Your task to perform on an android device: change your default location settings in chrome Image 0: 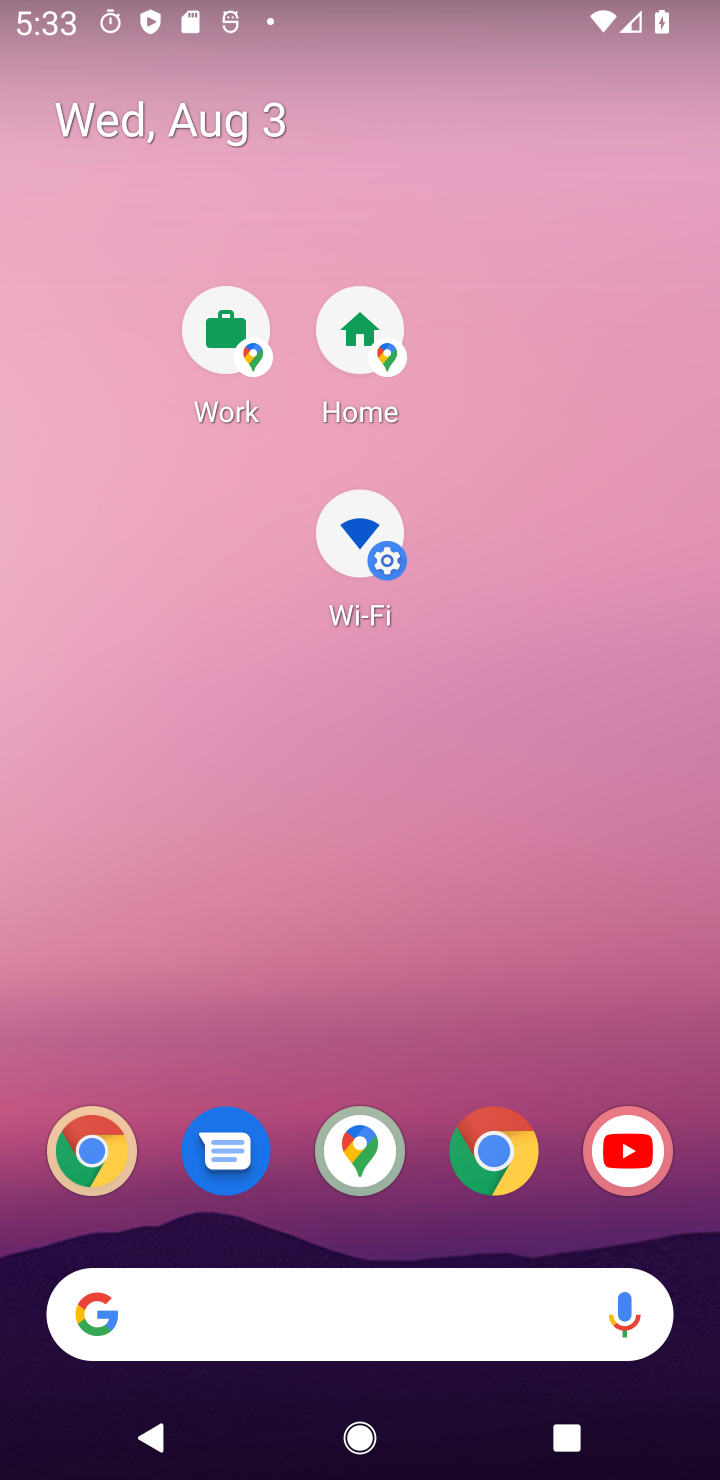
Step 0: drag from (226, 802) to (294, 475)
Your task to perform on an android device: change your default location settings in chrome Image 1: 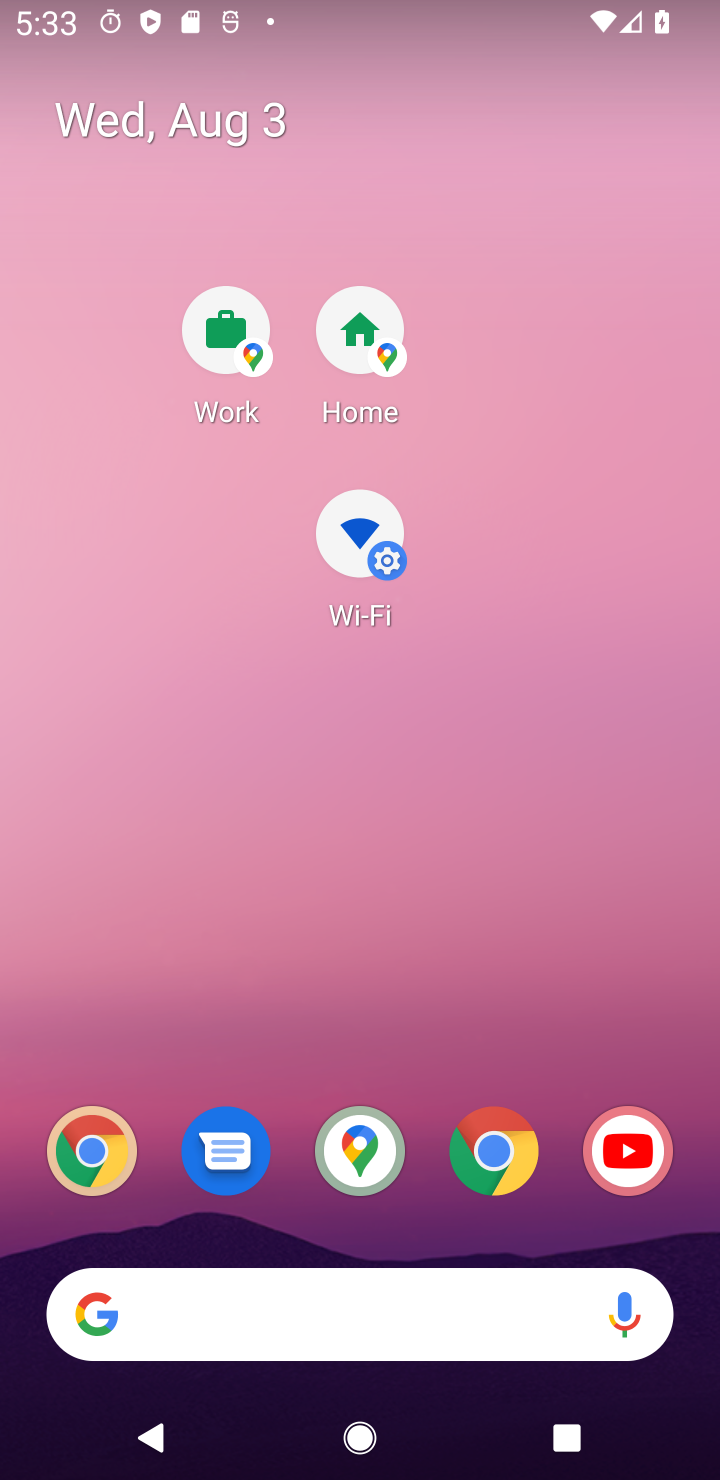
Step 1: drag from (392, 350) to (380, 43)
Your task to perform on an android device: change your default location settings in chrome Image 2: 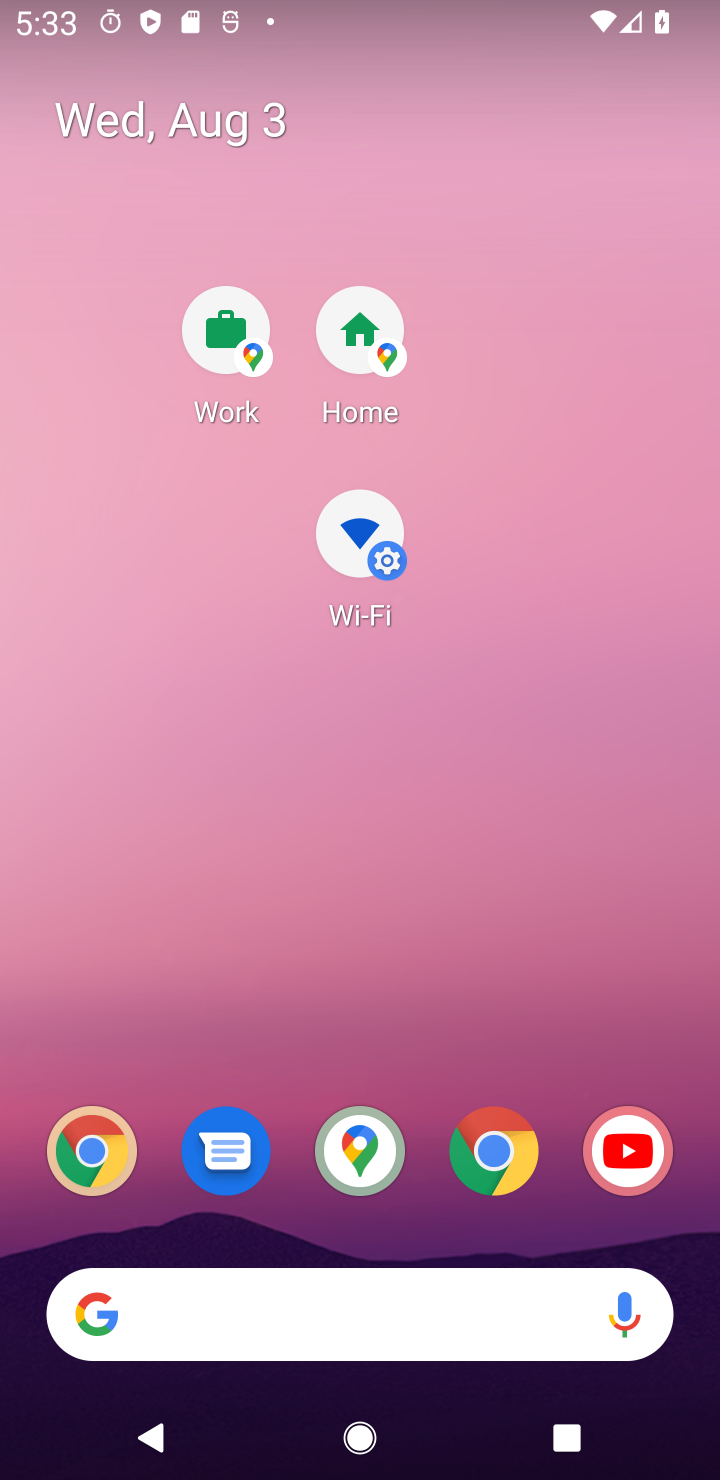
Step 2: drag from (441, 503) to (613, 17)
Your task to perform on an android device: change your default location settings in chrome Image 3: 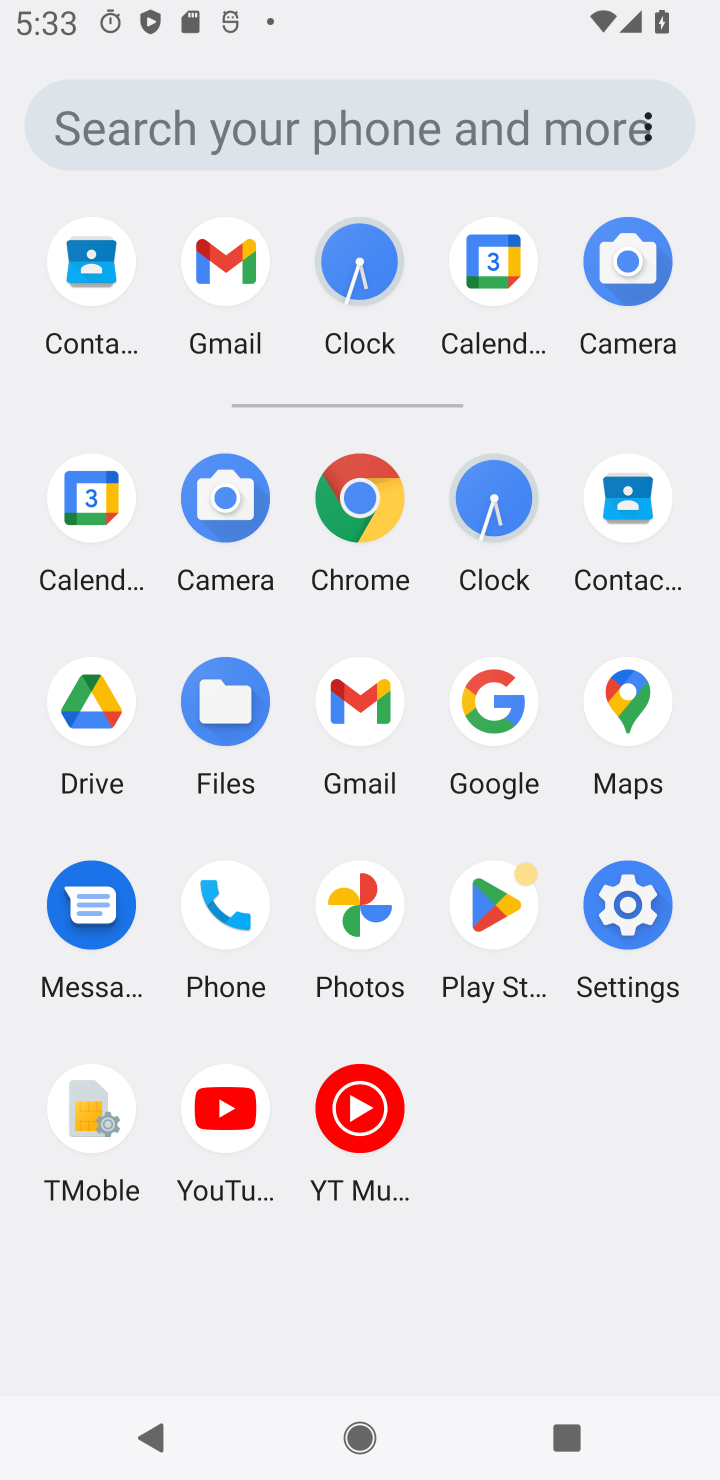
Step 3: click (346, 539)
Your task to perform on an android device: change your default location settings in chrome Image 4: 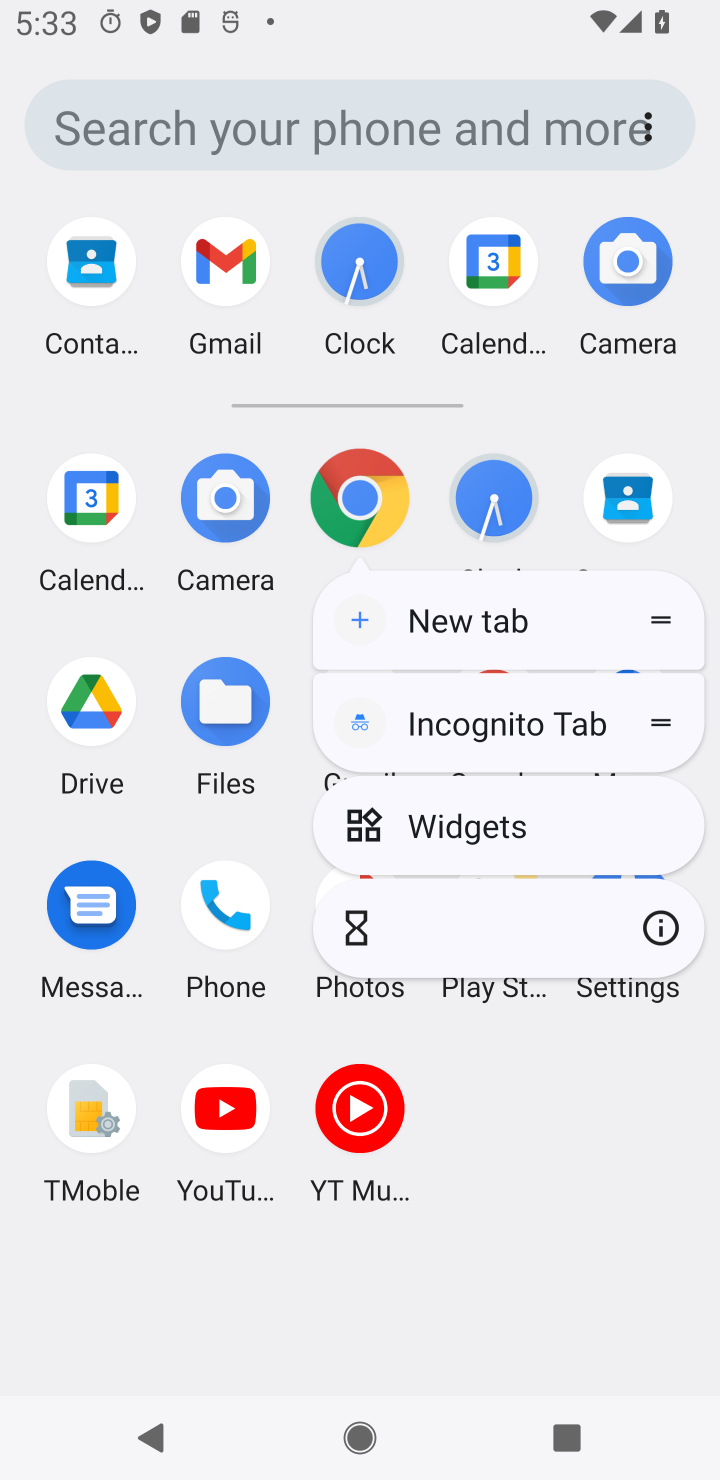
Step 4: click (355, 530)
Your task to perform on an android device: change your default location settings in chrome Image 5: 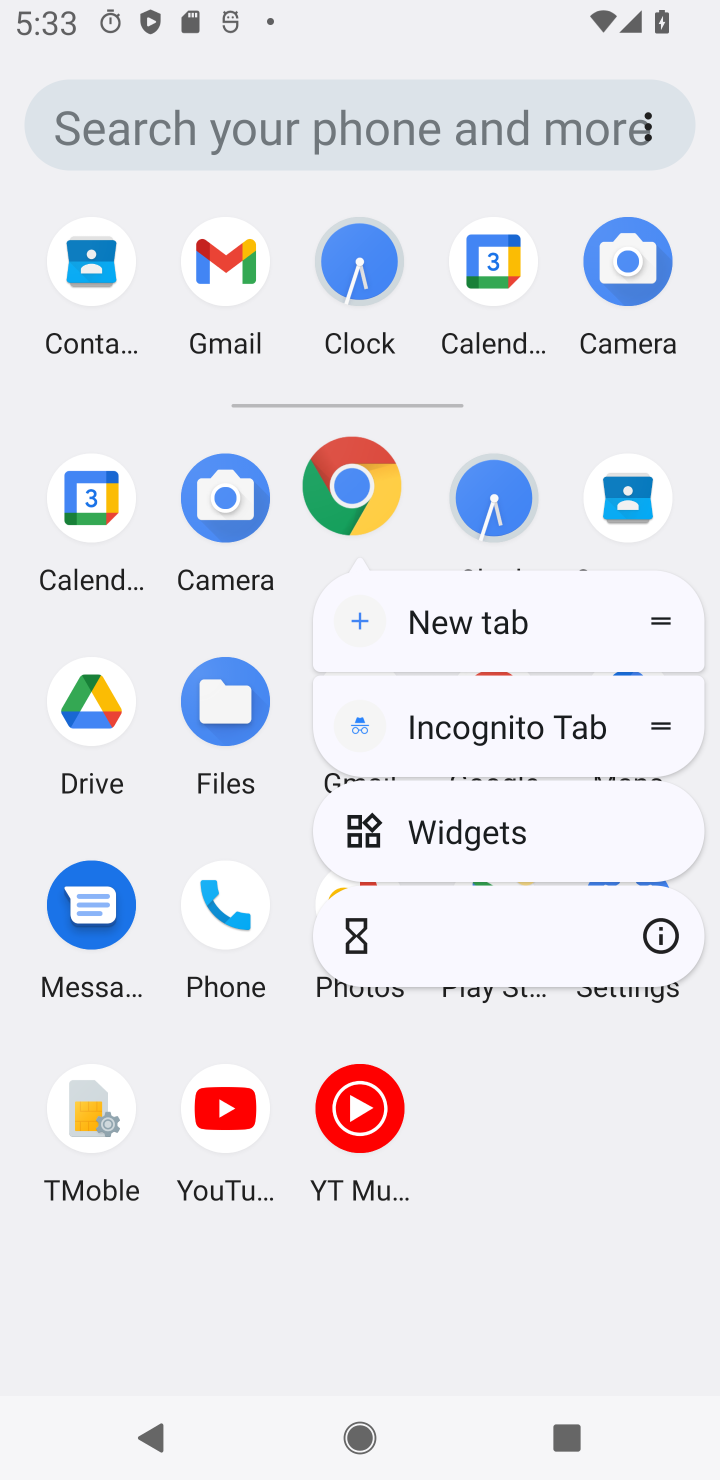
Step 5: click (351, 530)
Your task to perform on an android device: change your default location settings in chrome Image 6: 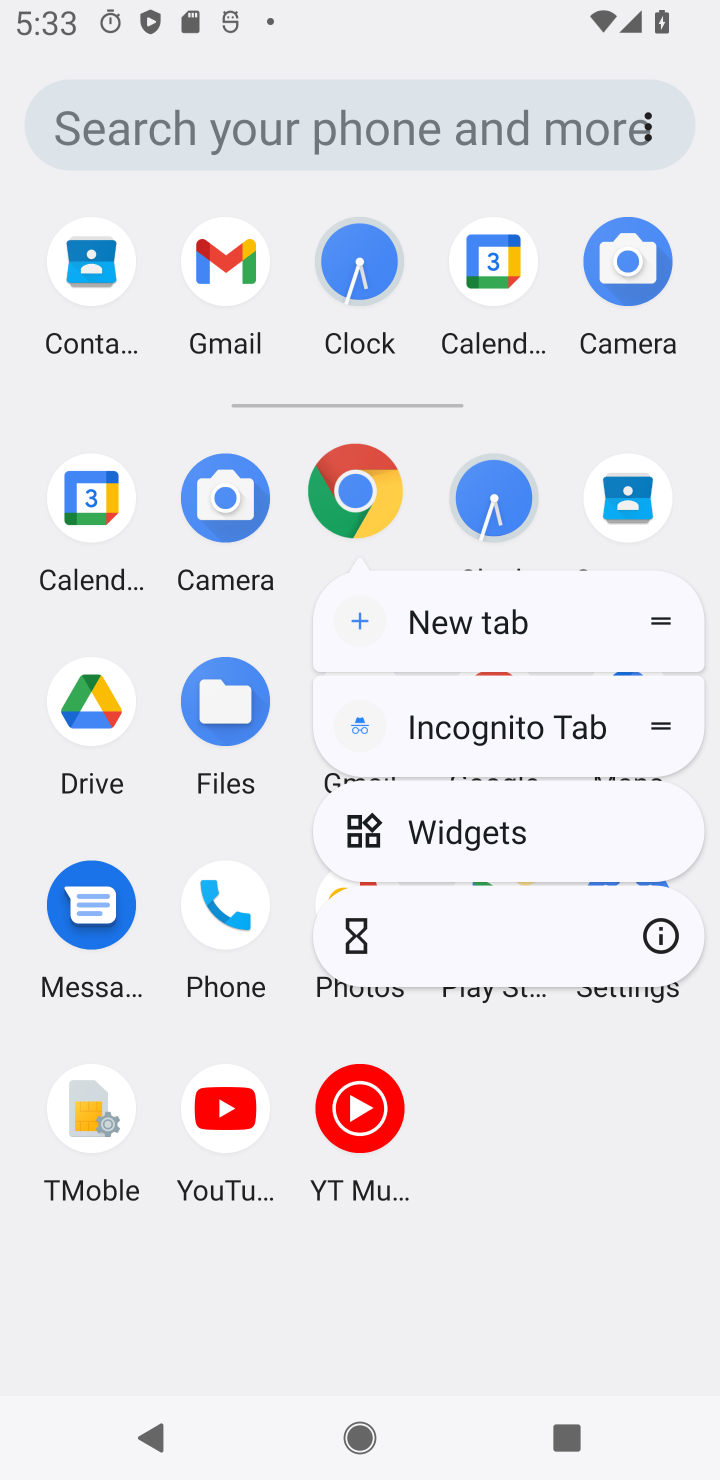
Step 6: click (349, 530)
Your task to perform on an android device: change your default location settings in chrome Image 7: 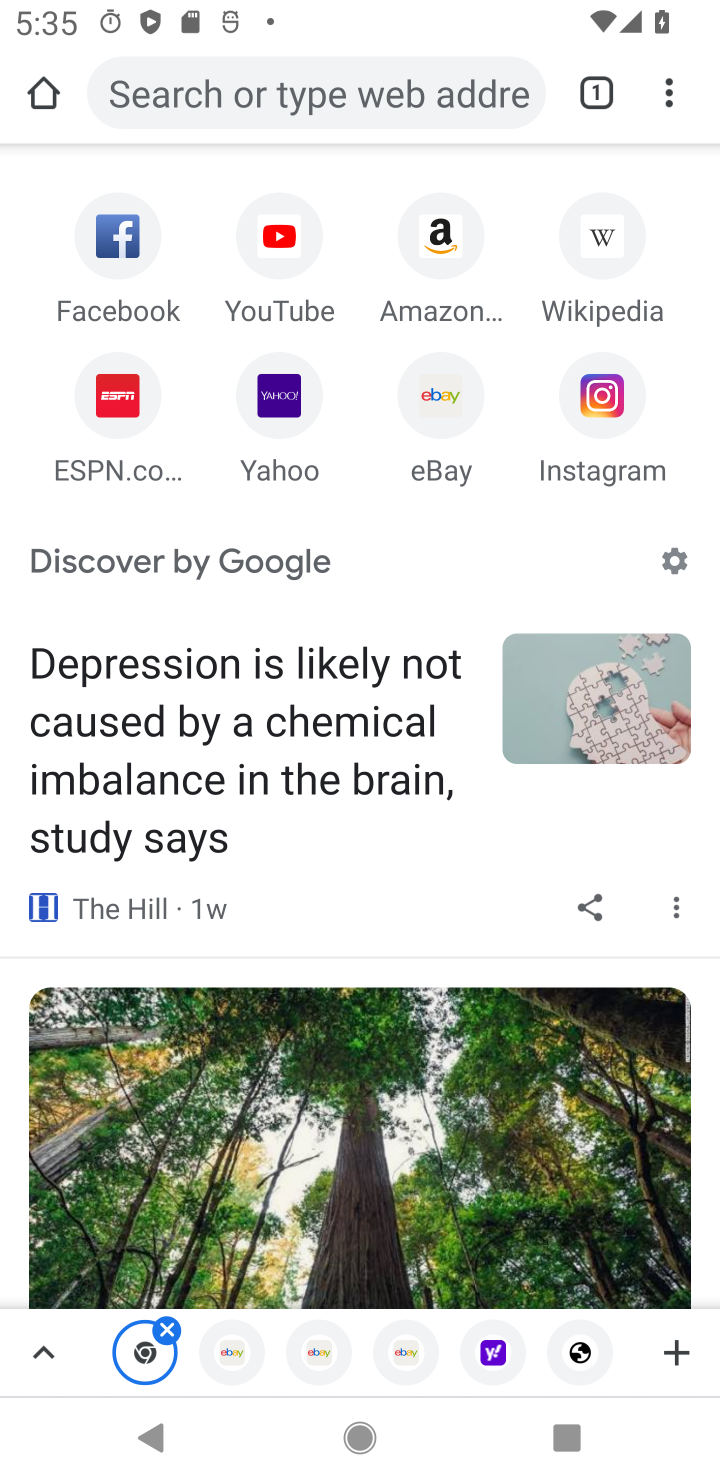
Step 7: drag from (675, 92) to (350, 650)
Your task to perform on an android device: change your default location settings in chrome Image 8: 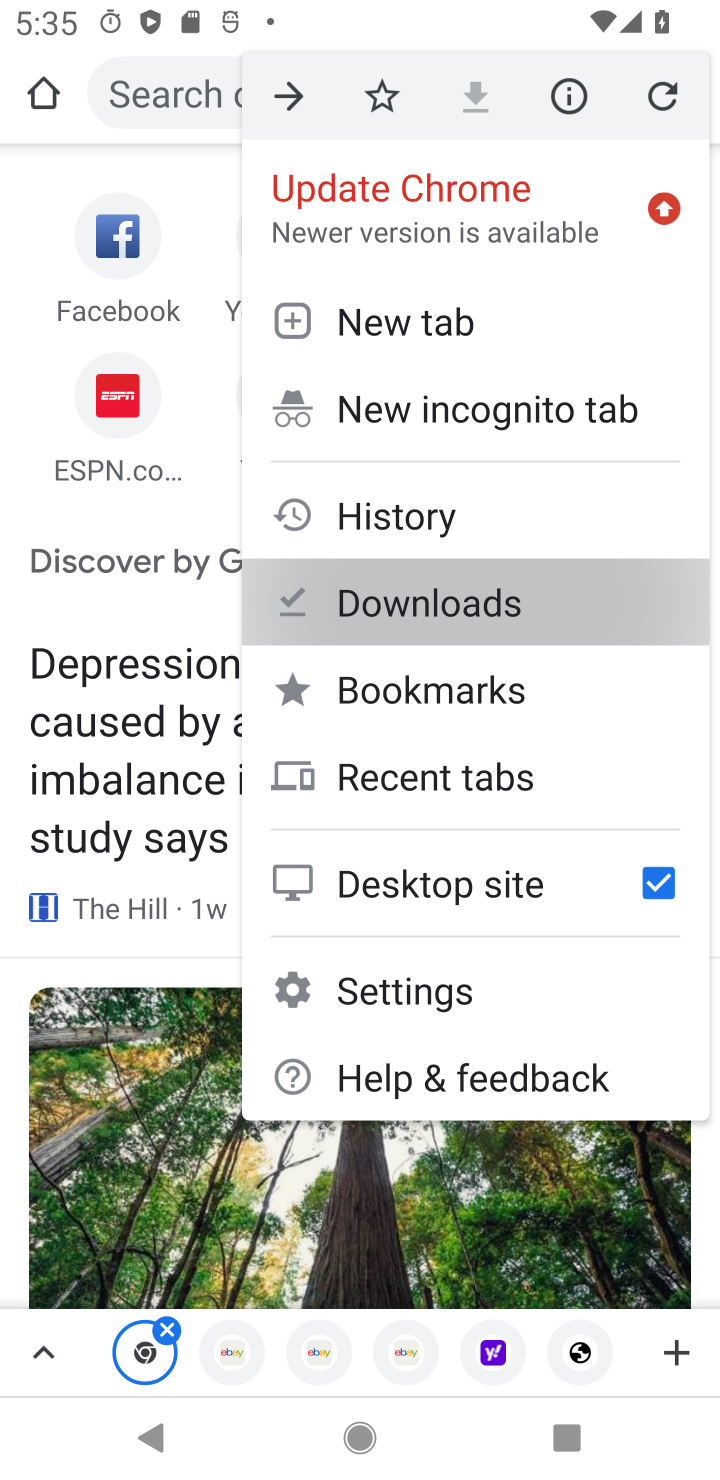
Step 8: click (464, 764)
Your task to perform on an android device: change your default location settings in chrome Image 9: 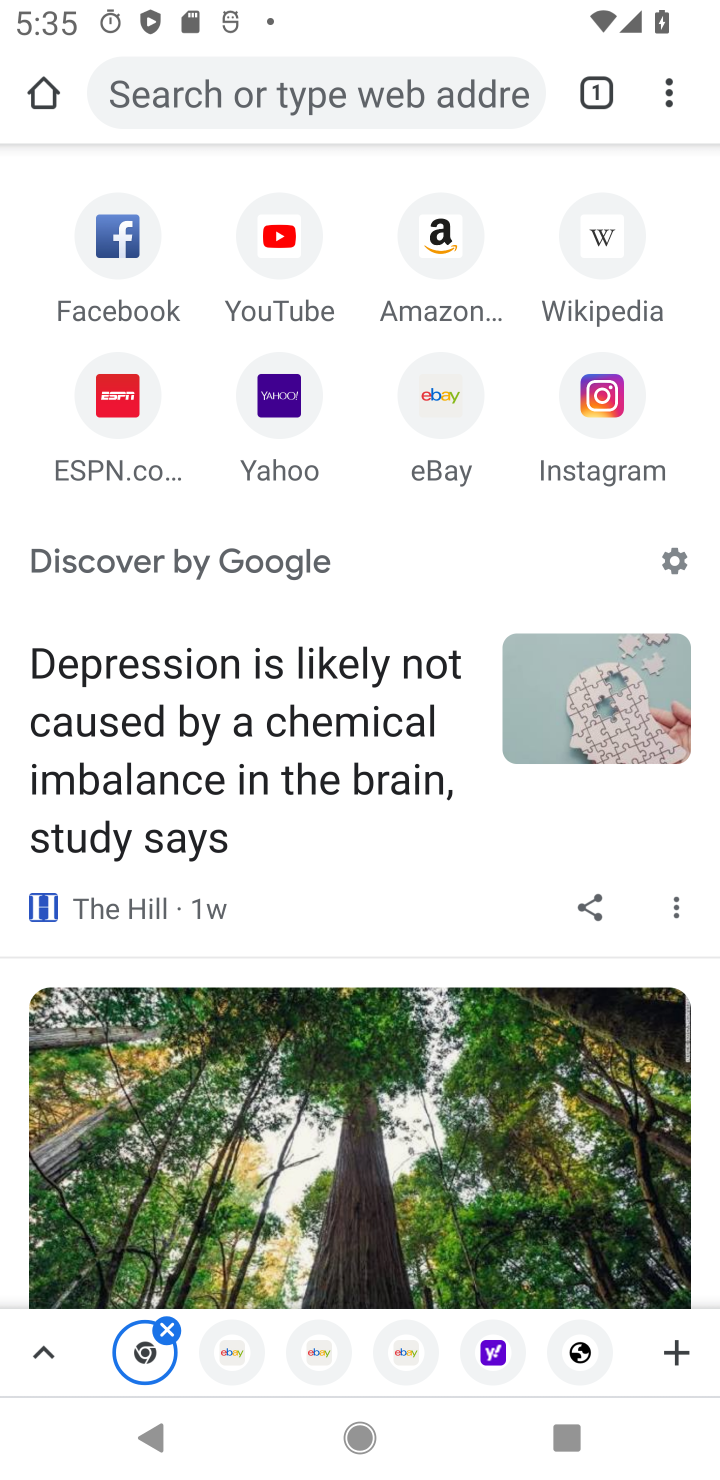
Step 9: click (466, 763)
Your task to perform on an android device: change your default location settings in chrome Image 10: 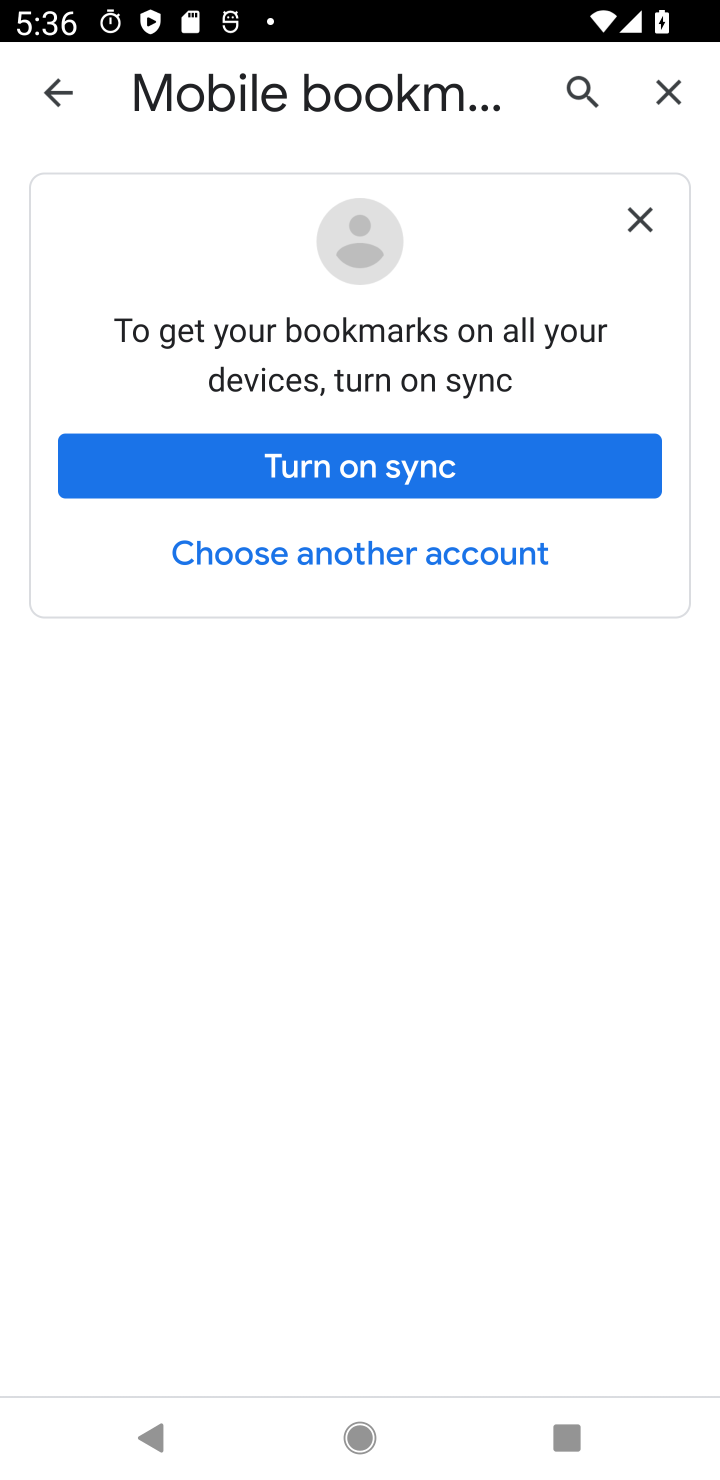
Step 10: click (387, 467)
Your task to perform on an android device: change your default location settings in chrome Image 11: 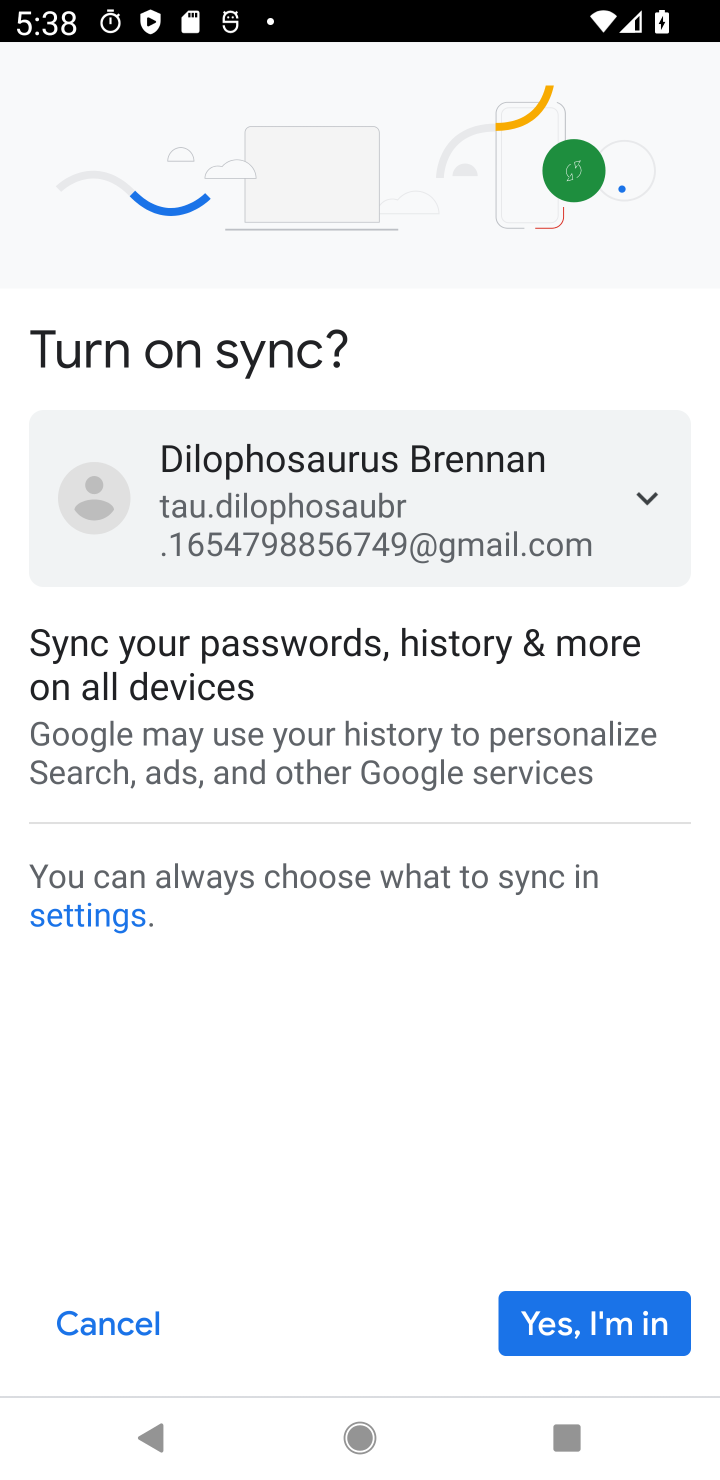
Step 11: click (95, 1314)
Your task to perform on an android device: change your default location settings in chrome Image 12: 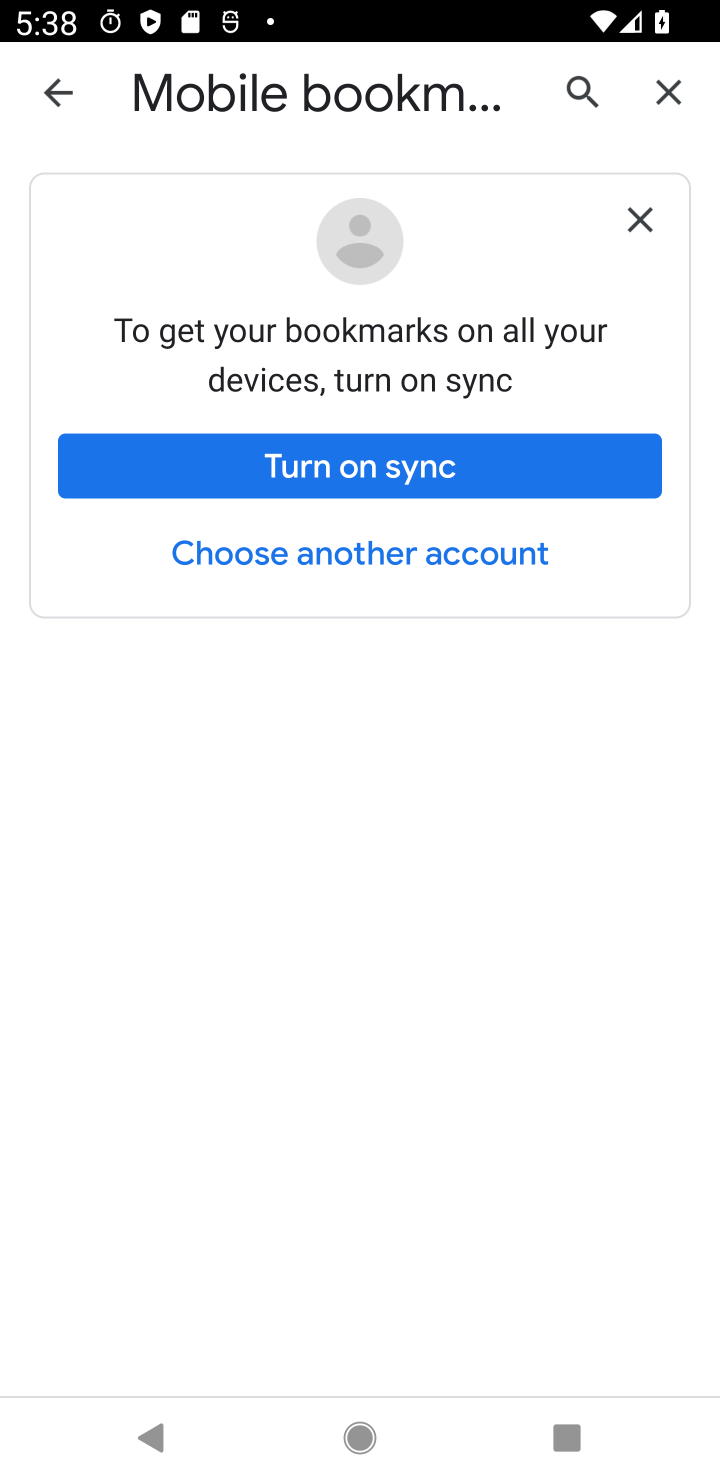
Step 12: click (55, 86)
Your task to perform on an android device: change your default location settings in chrome Image 13: 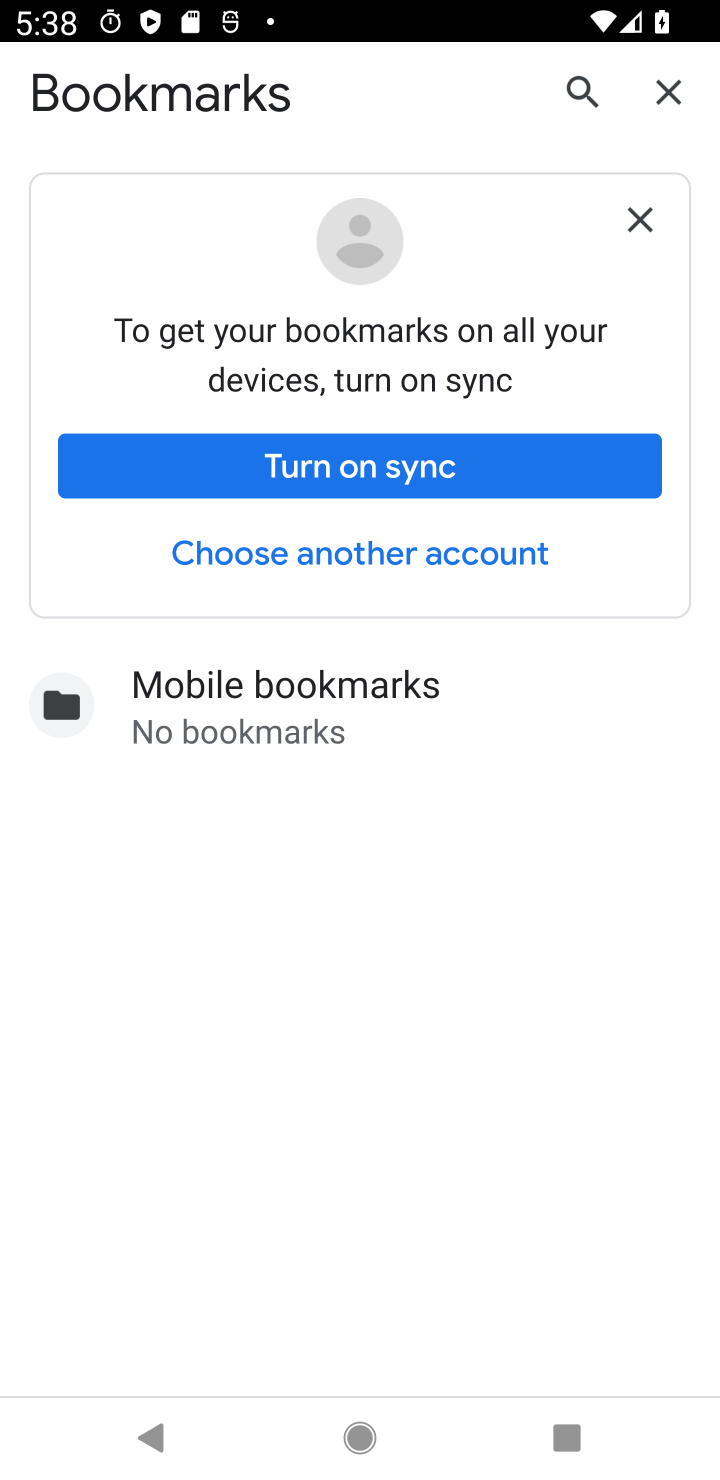
Step 13: click (648, 222)
Your task to perform on an android device: change your default location settings in chrome Image 14: 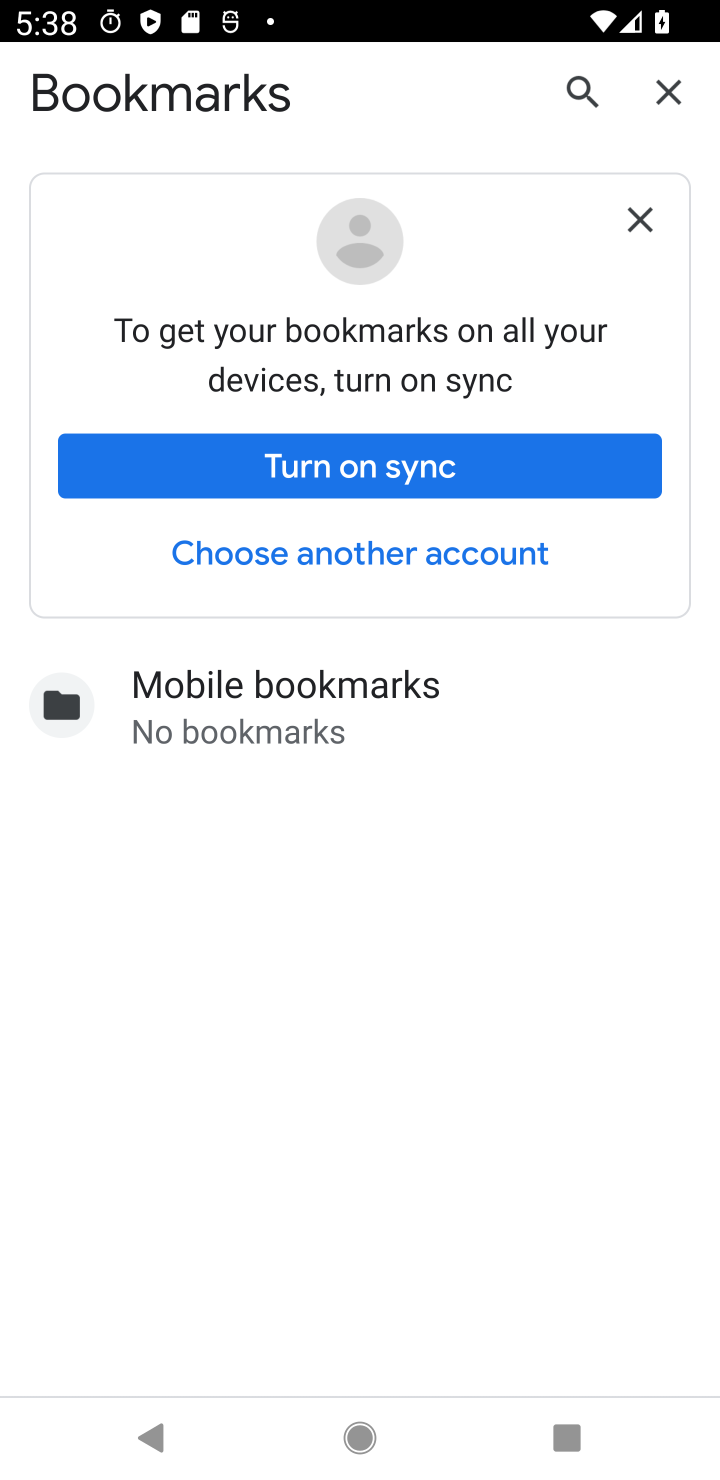
Step 14: click (640, 219)
Your task to perform on an android device: change your default location settings in chrome Image 15: 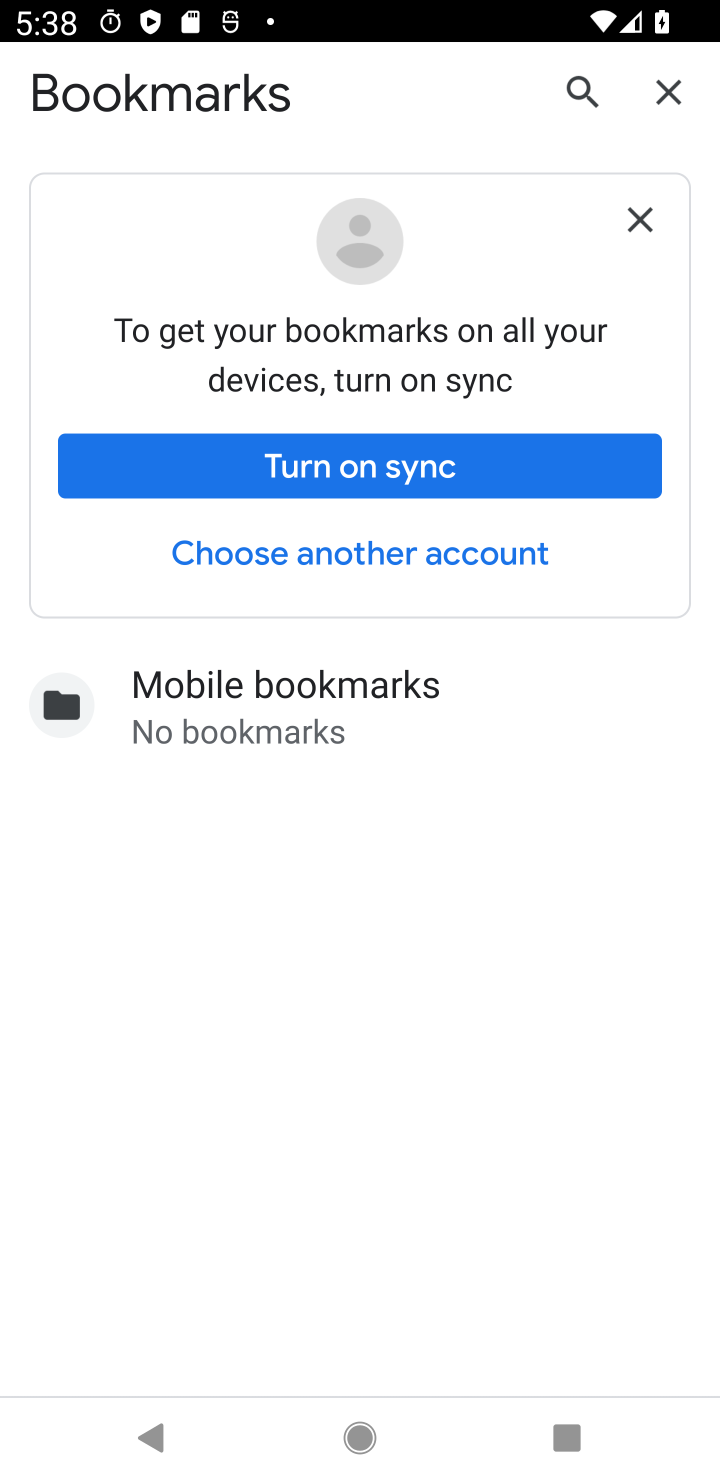
Step 15: click (640, 219)
Your task to perform on an android device: change your default location settings in chrome Image 16: 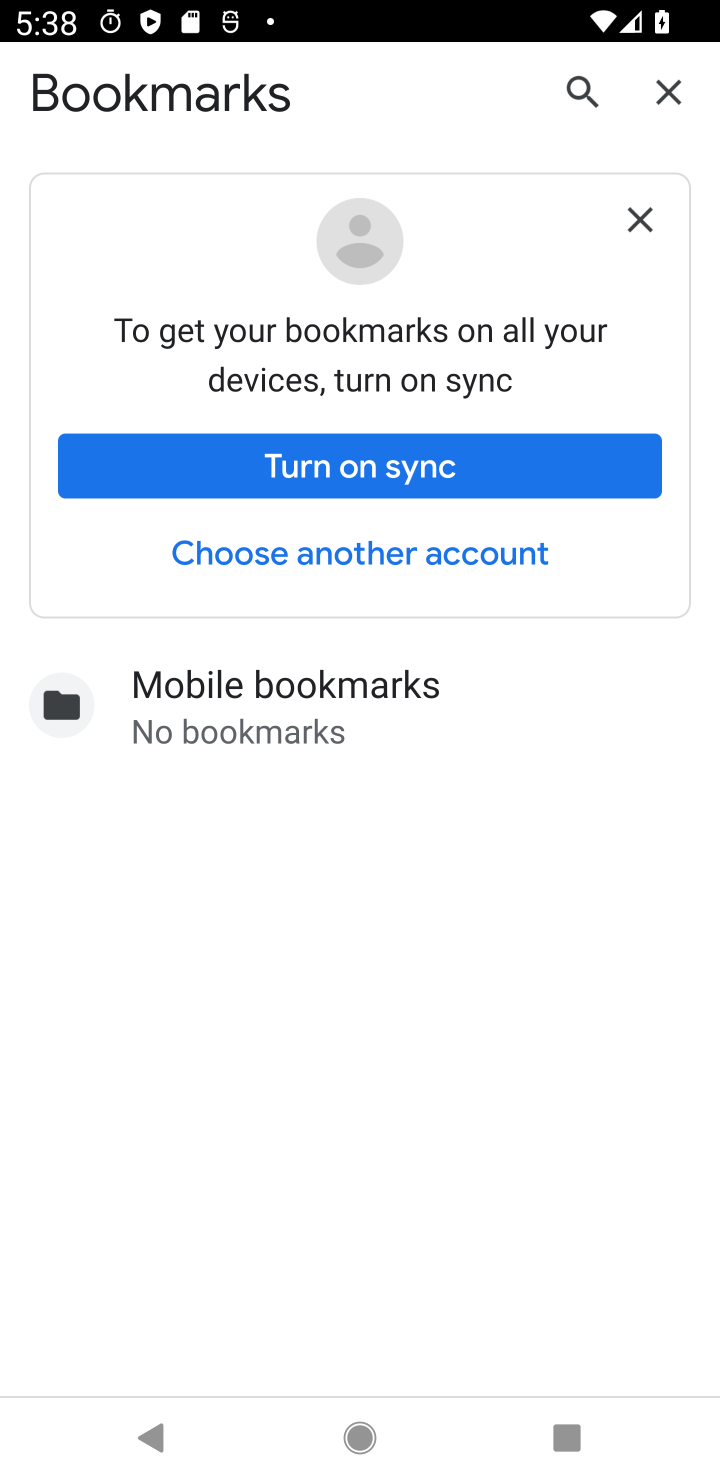
Step 16: click (629, 219)
Your task to perform on an android device: change your default location settings in chrome Image 17: 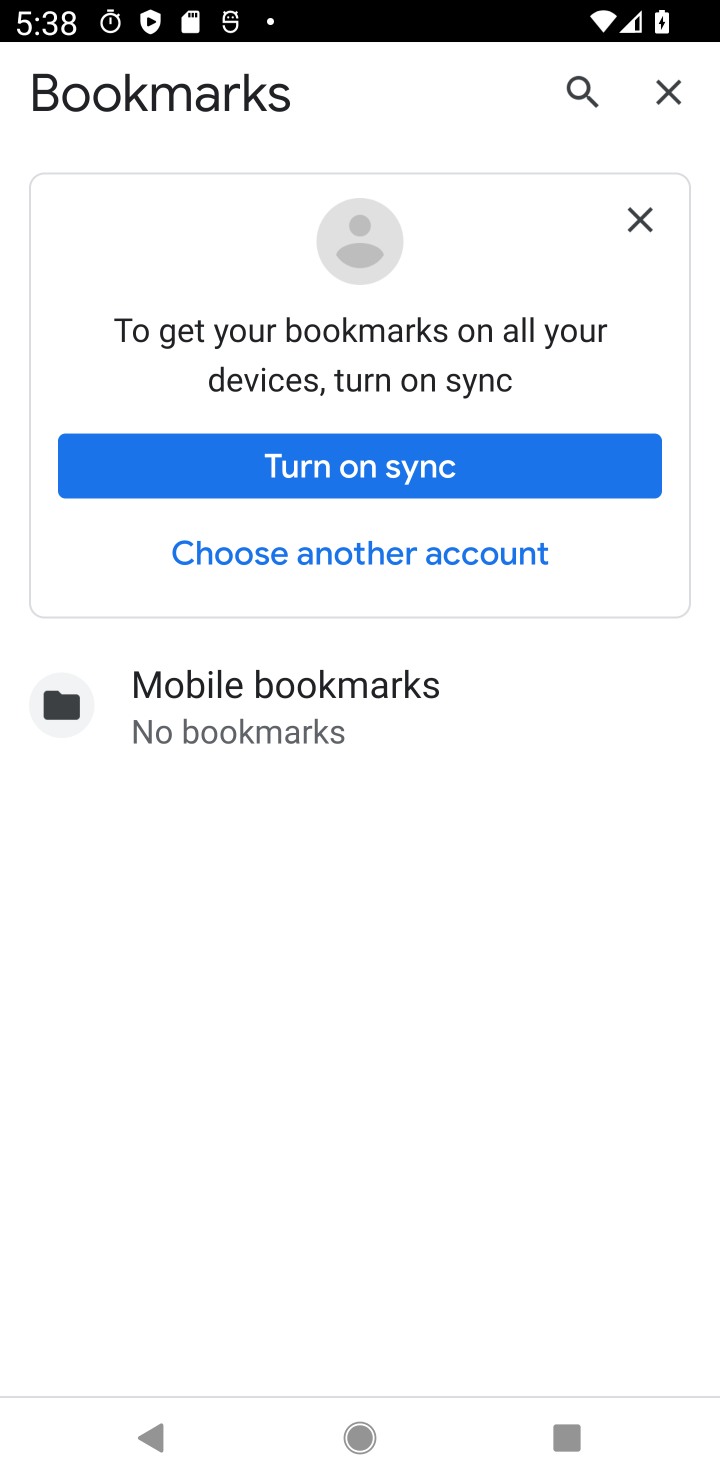
Step 17: click (647, 85)
Your task to perform on an android device: change your default location settings in chrome Image 18: 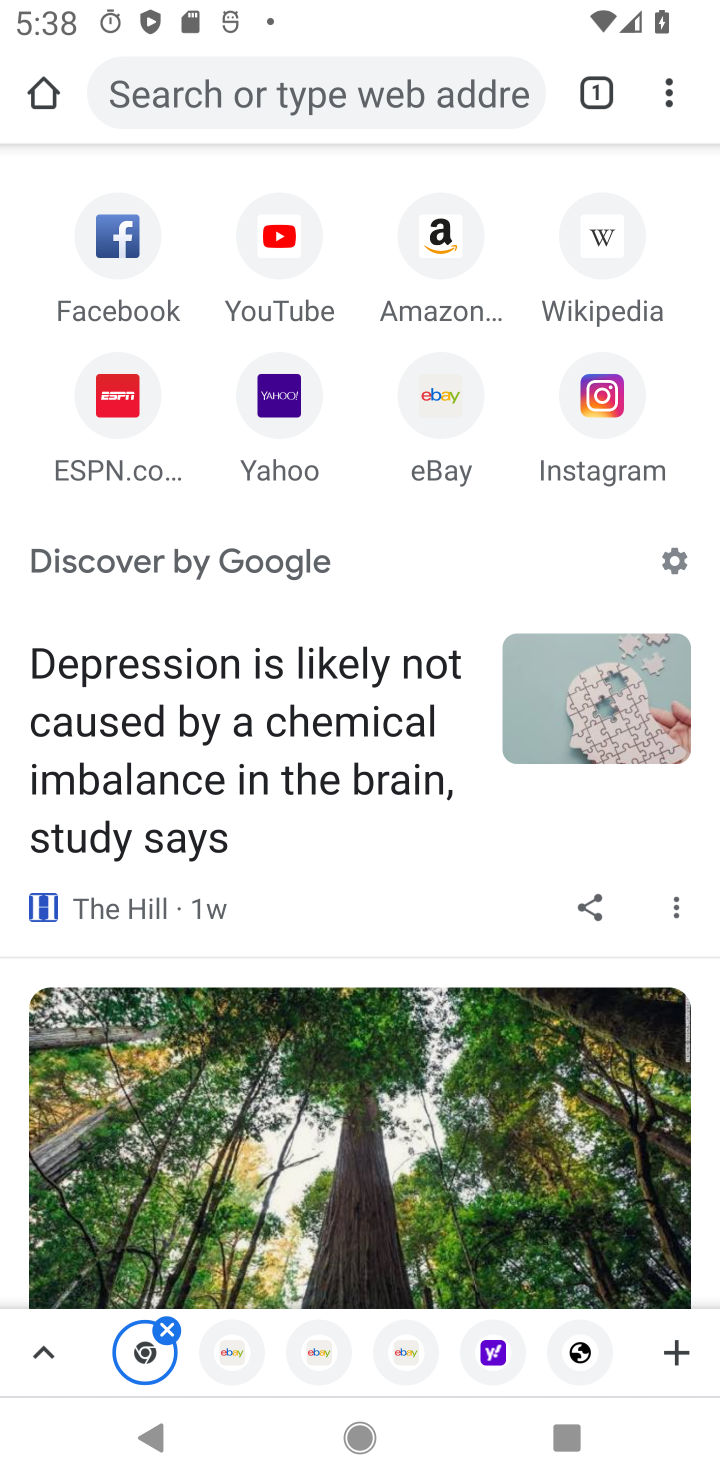
Step 18: drag from (667, 98) to (386, 984)
Your task to perform on an android device: change your default location settings in chrome Image 19: 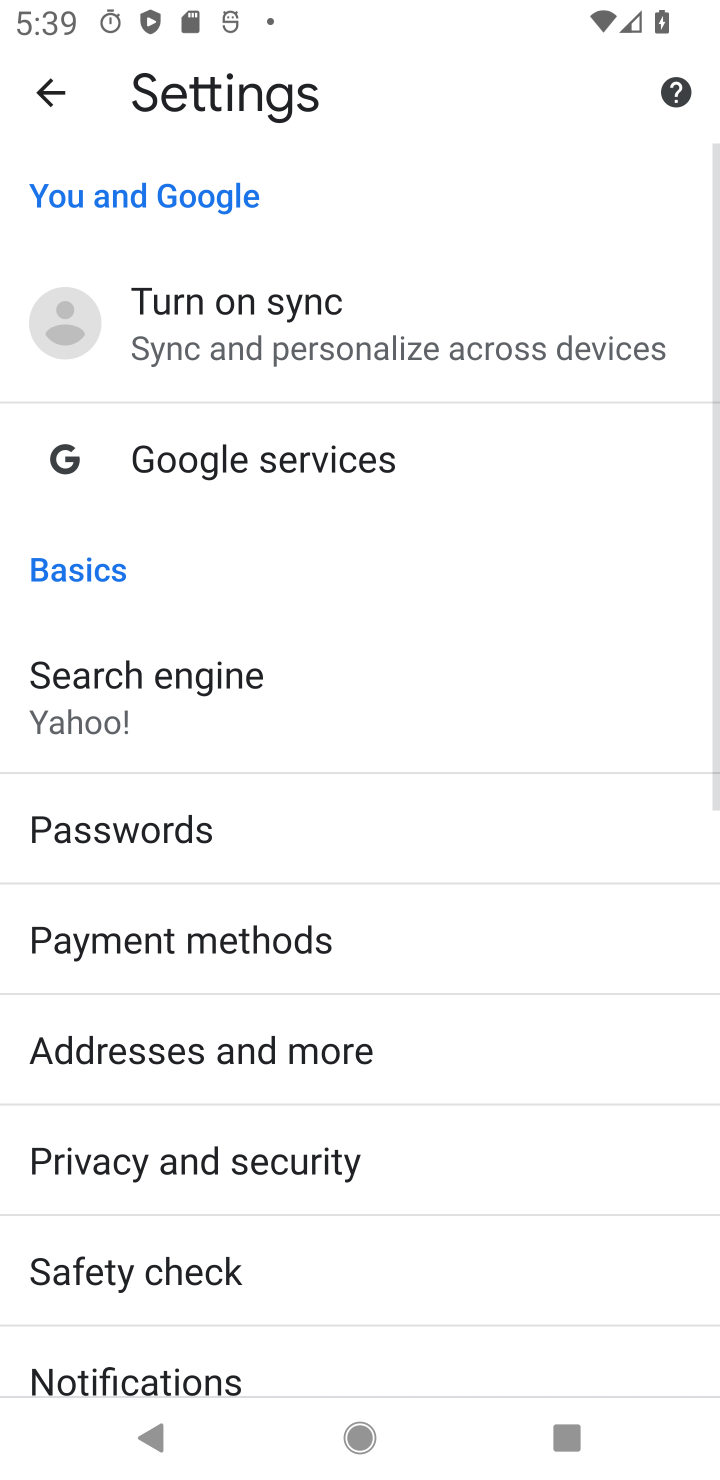
Step 19: drag from (225, 1176) to (161, 696)
Your task to perform on an android device: change your default location settings in chrome Image 20: 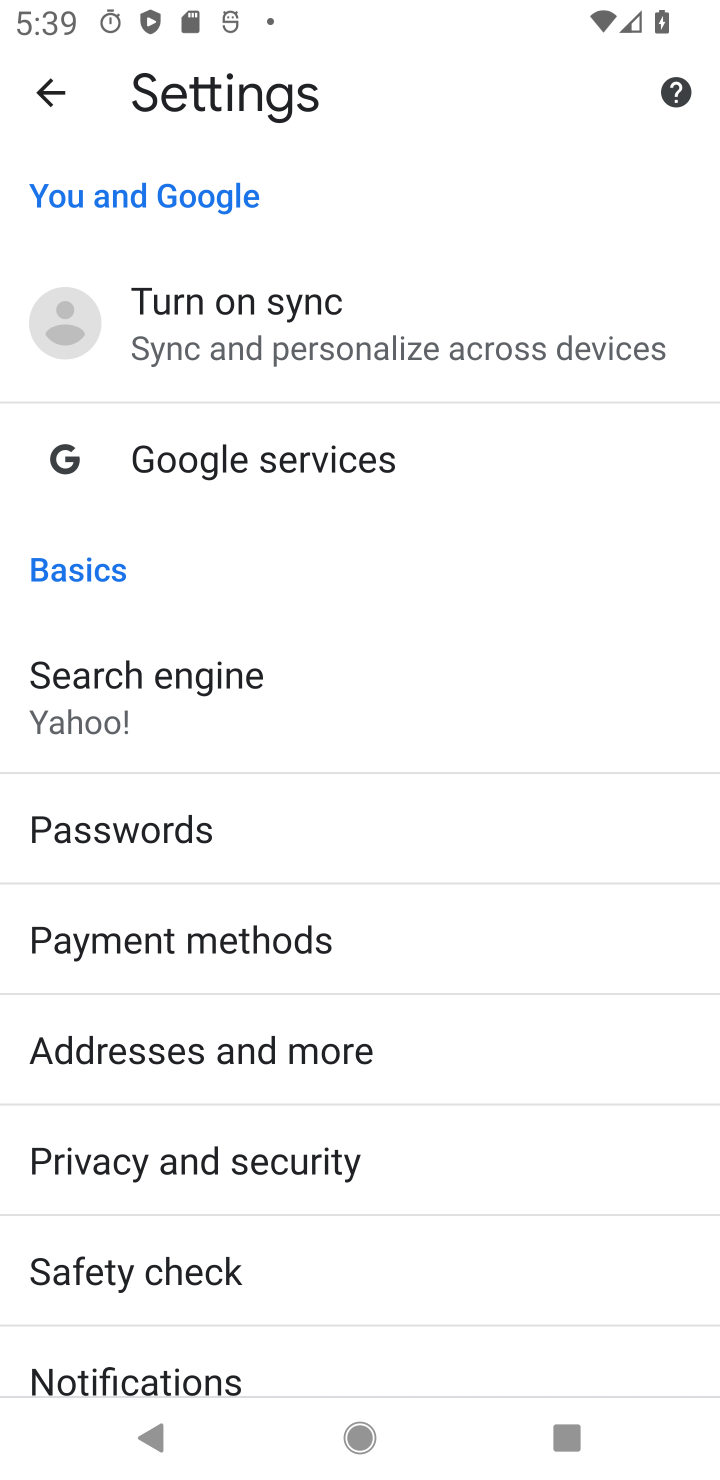
Step 20: click (136, 702)
Your task to perform on an android device: change your default location settings in chrome Image 21: 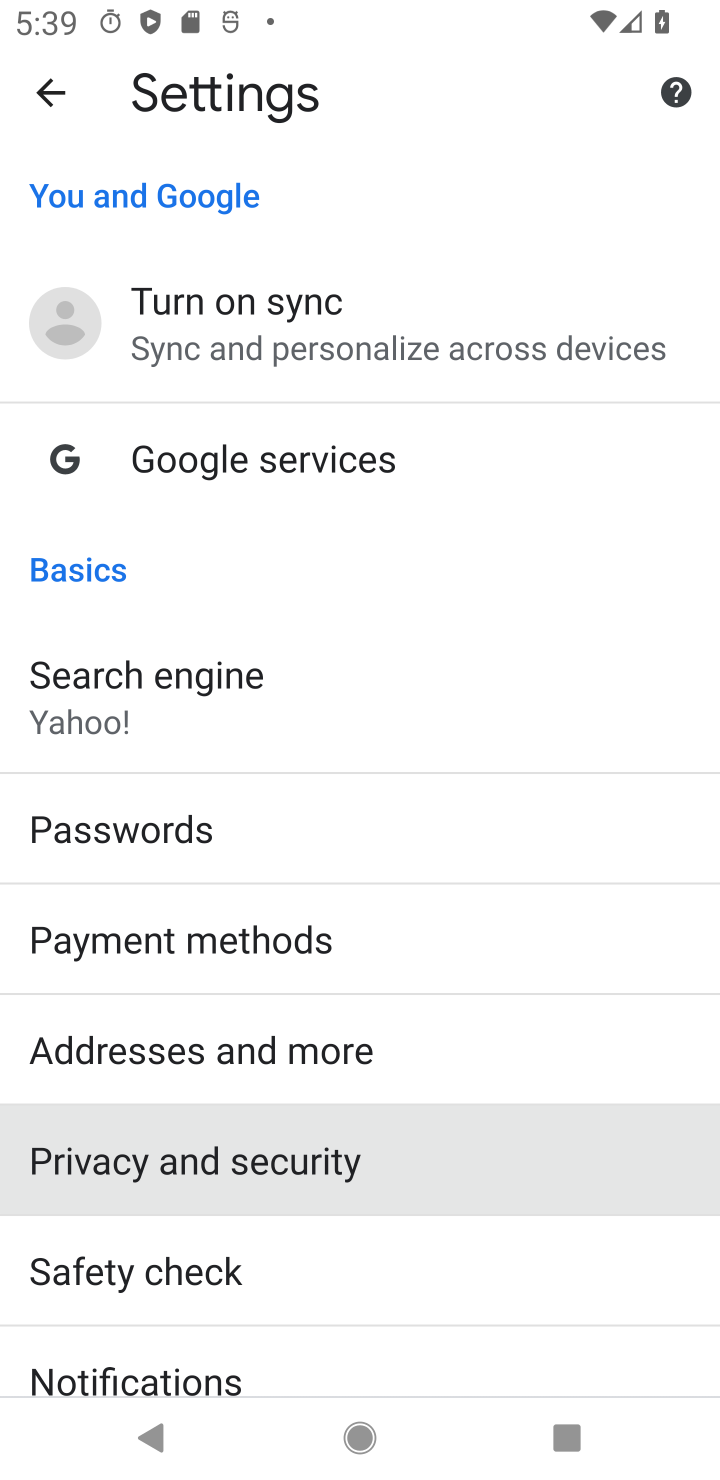
Step 21: click (258, 751)
Your task to perform on an android device: change your default location settings in chrome Image 22: 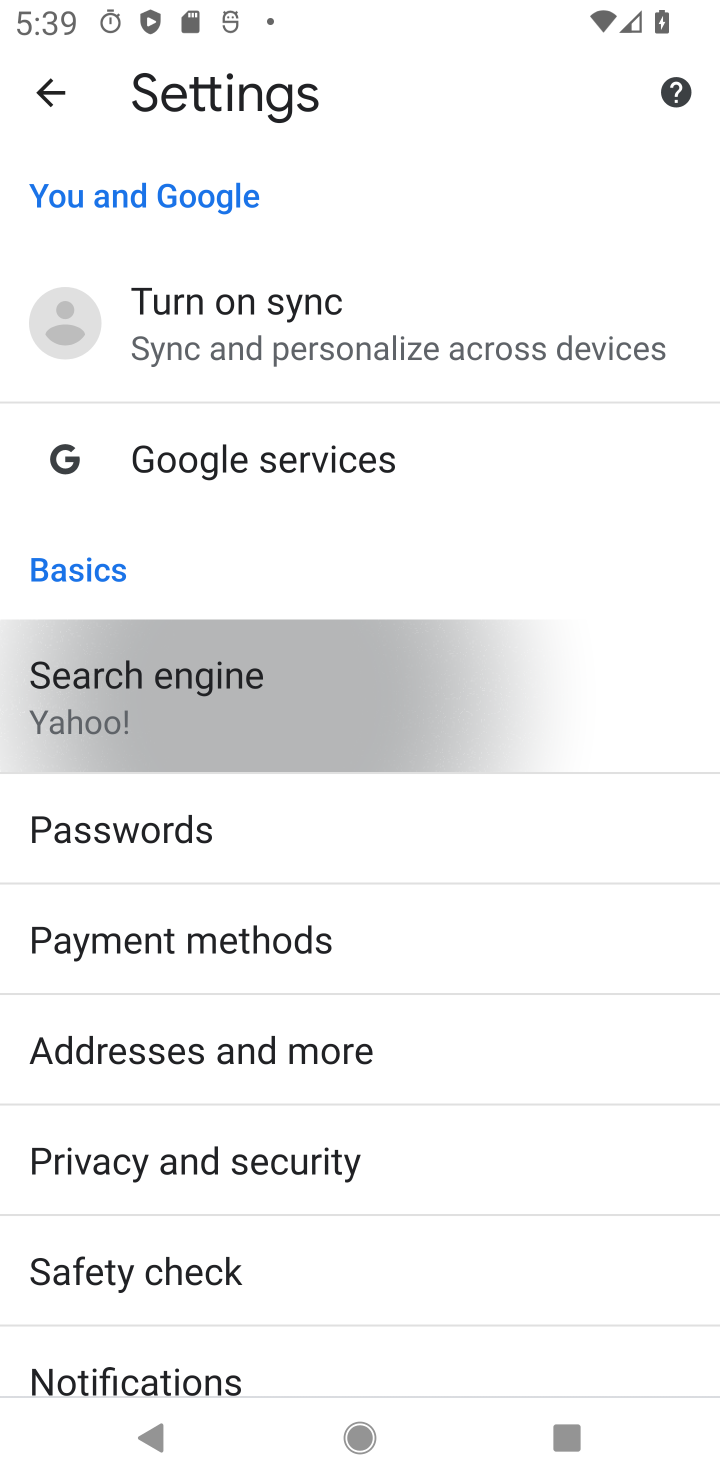
Step 22: drag from (319, 952) to (319, 569)
Your task to perform on an android device: change your default location settings in chrome Image 23: 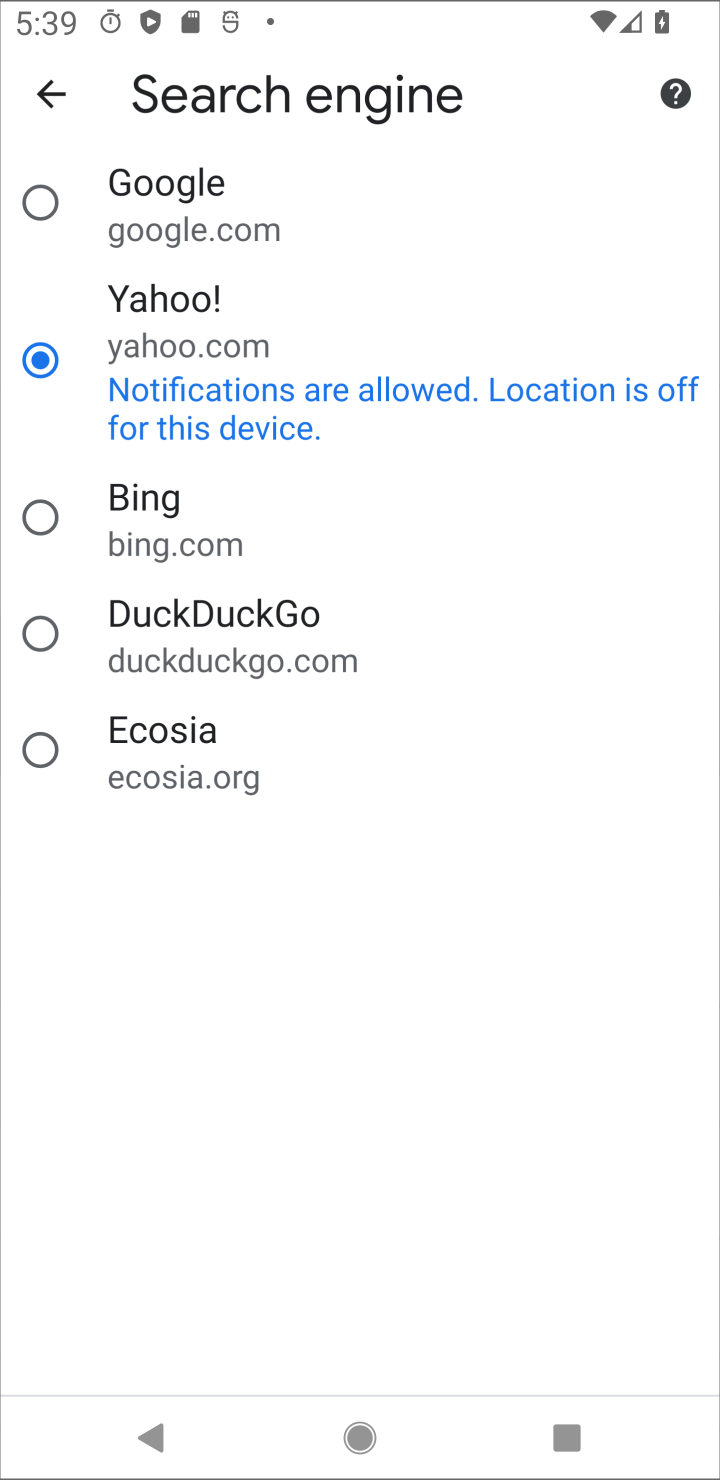
Step 23: drag from (301, 673) to (281, 190)
Your task to perform on an android device: change your default location settings in chrome Image 24: 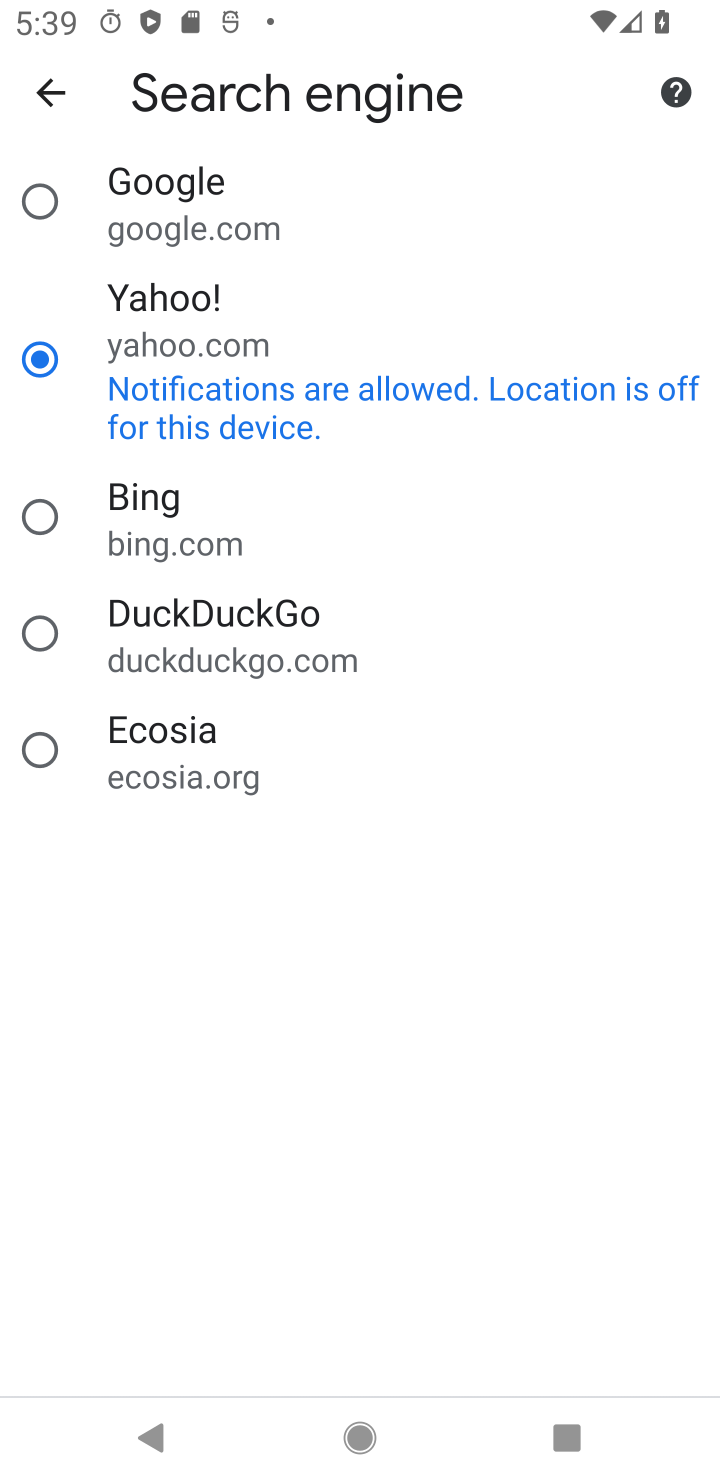
Step 24: click (57, 94)
Your task to perform on an android device: change your default location settings in chrome Image 25: 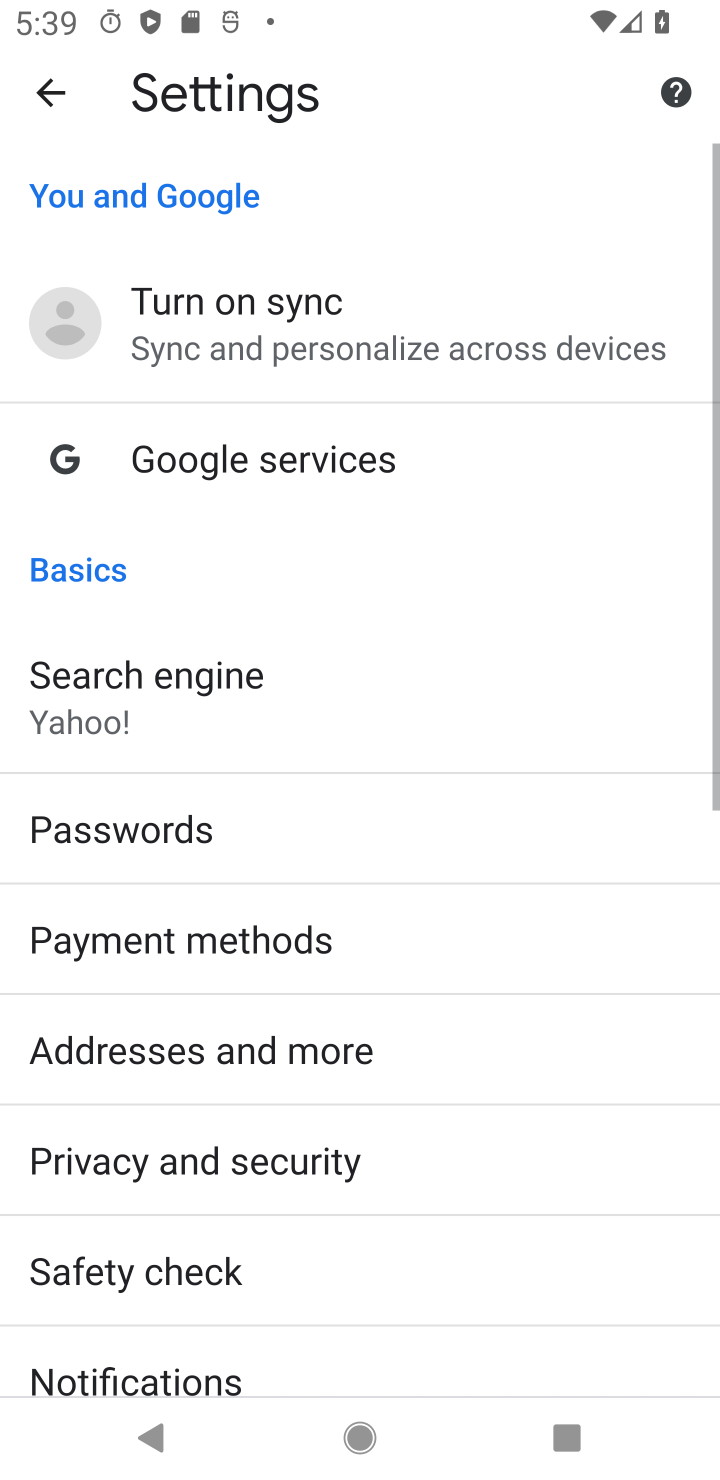
Step 25: drag from (231, 833) to (124, 147)
Your task to perform on an android device: change your default location settings in chrome Image 26: 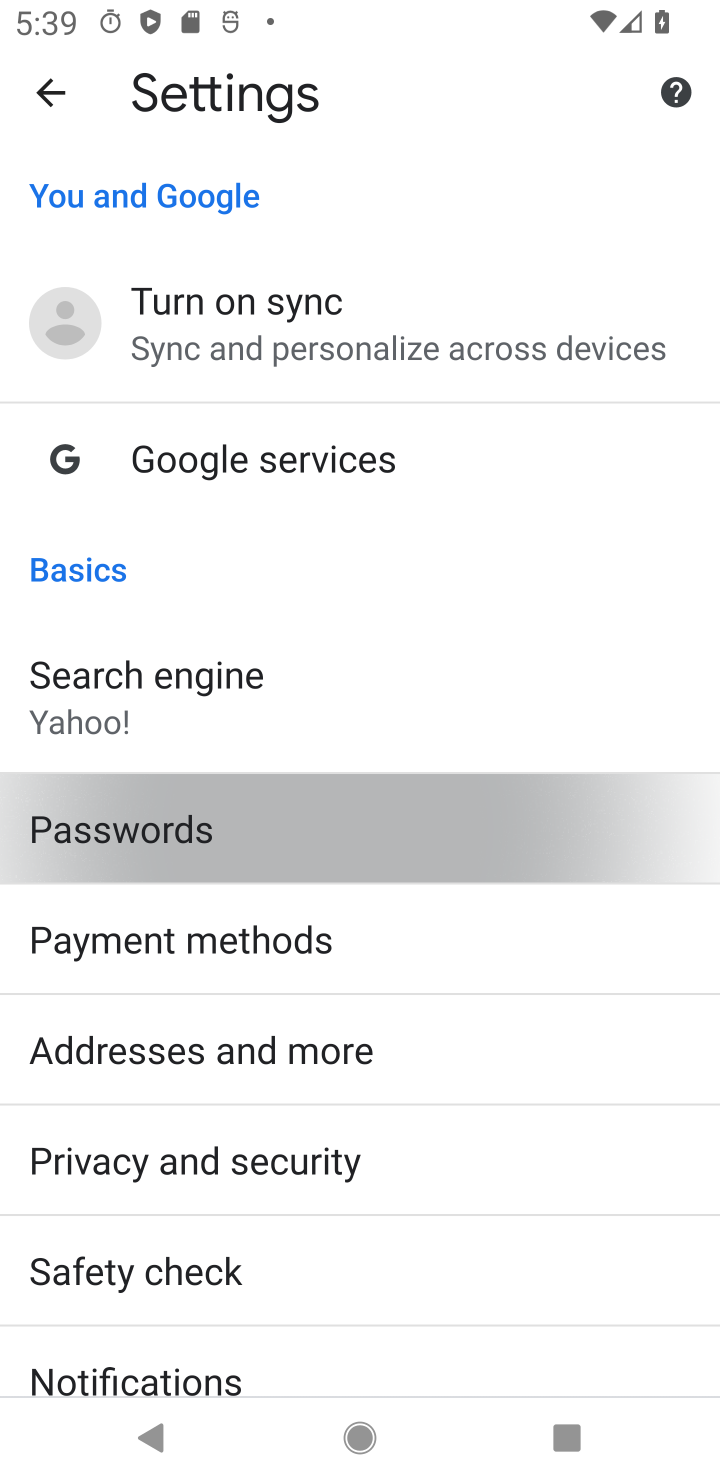
Step 26: drag from (241, 980) to (216, 466)
Your task to perform on an android device: change your default location settings in chrome Image 27: 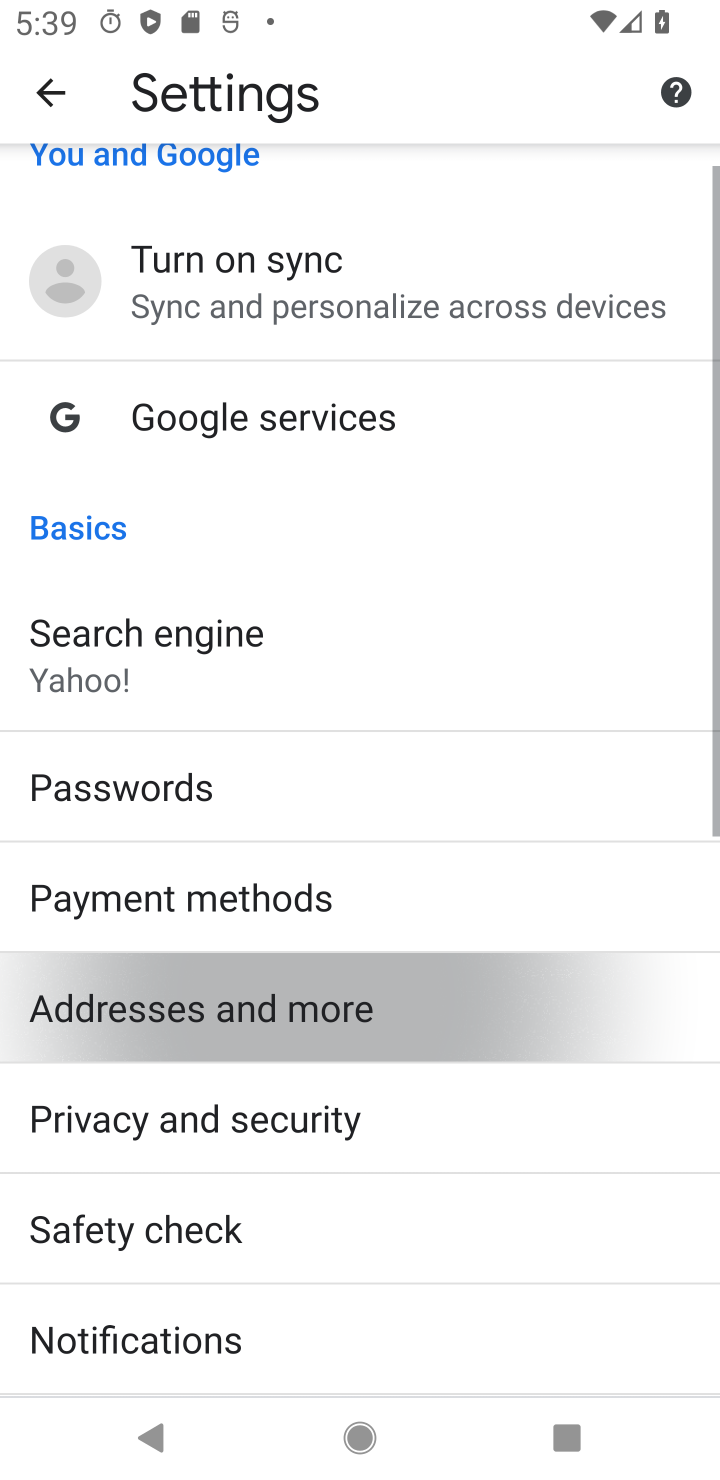
Step 27: drag from (265, 917) to (252, 580)
Your task to perform on an android device: change your default location settings in chrome Image 28: 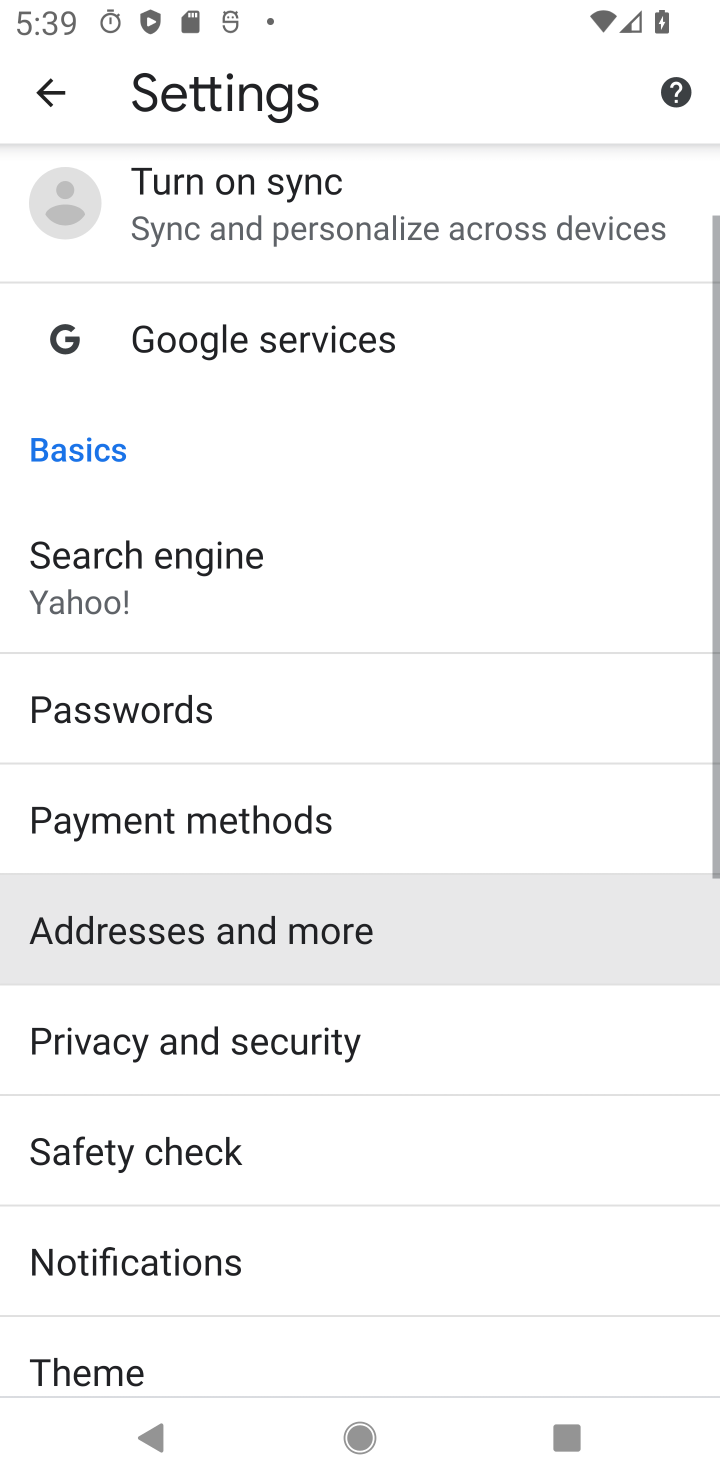
Step 28: drag from (249, 1111) to (125, 538)
Your task to perform on an android device: change your default location settings in chrome Image 29: 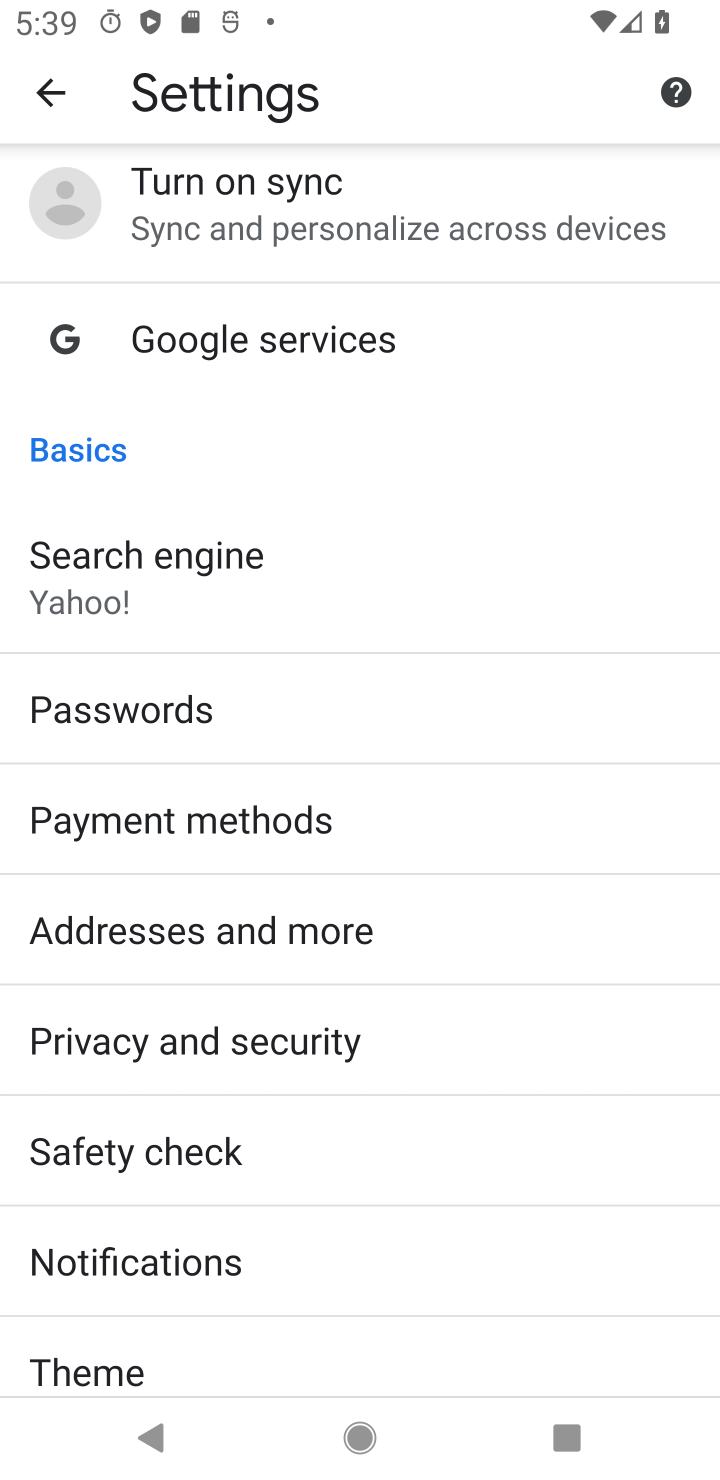
Step 29: drag from (190, 1051) to (148, 476)
Your task to perform on an android device: change your default location settings in chrome Image 30: 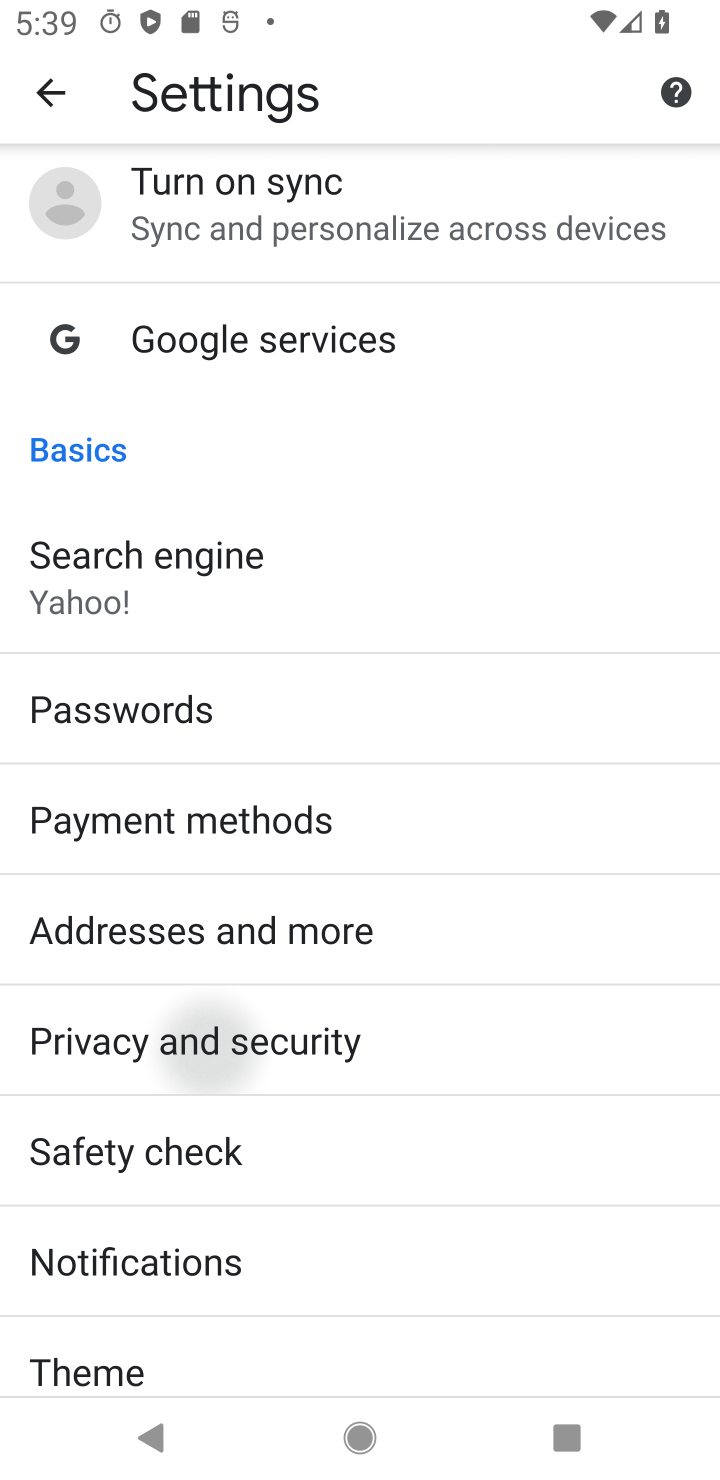
Step 30: drag from (286, 955) to (281, 485)
Your task to perform on an android device: change your default location settings in chrome Image 31: 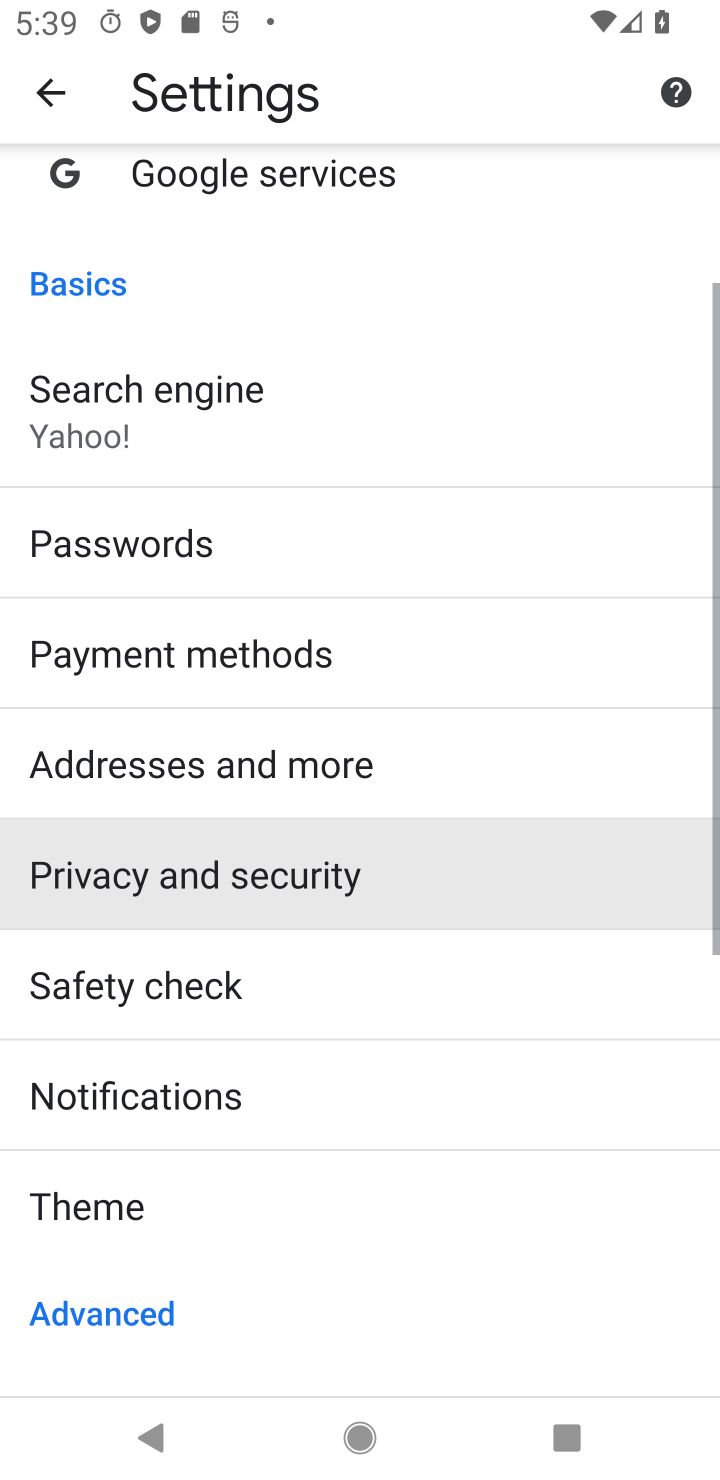
Step 31: drag from (306, 1028) to (274, 412)
Your task to perform on an android device: change your default location settings in chrome Image 32: 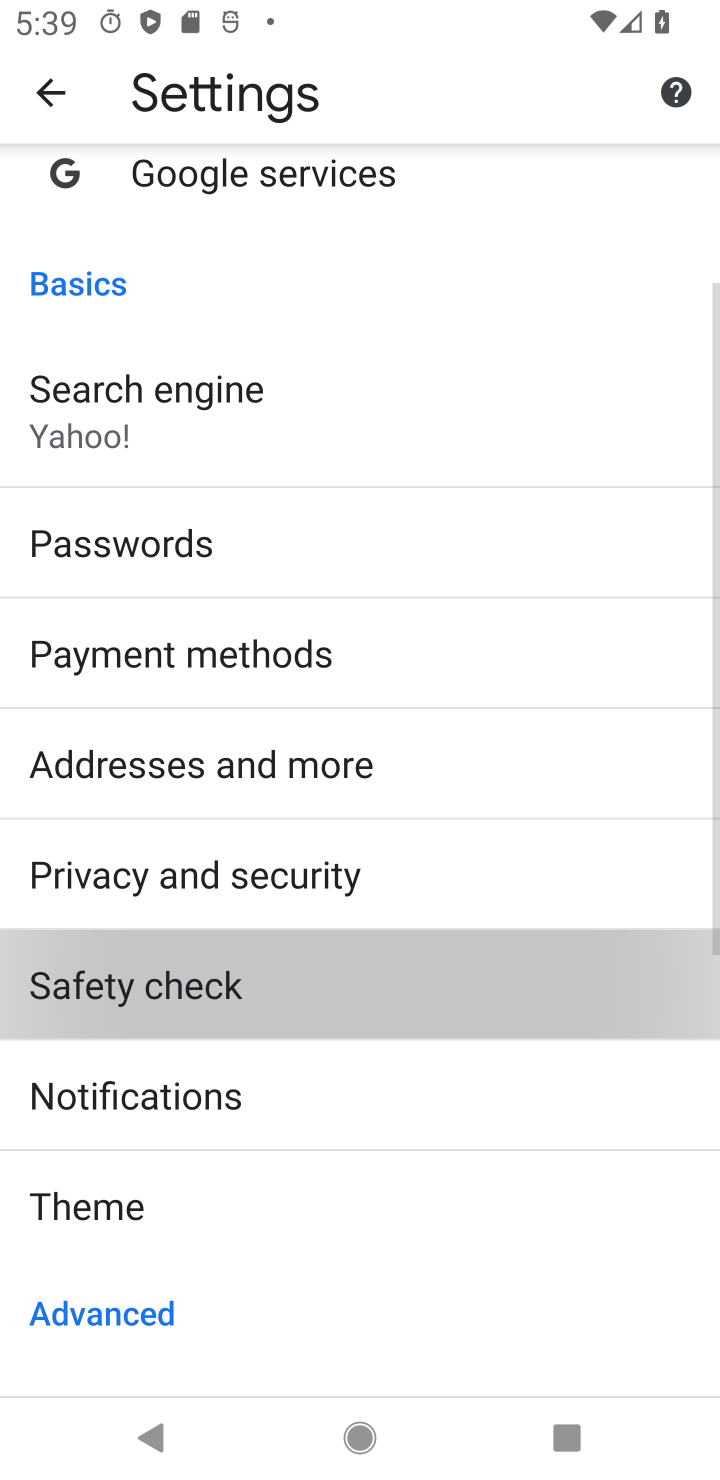
Step 32: drag from (253, 807) to (312, 334)
Your task to perform on an android device: change your default location settings in chrome Image 33: 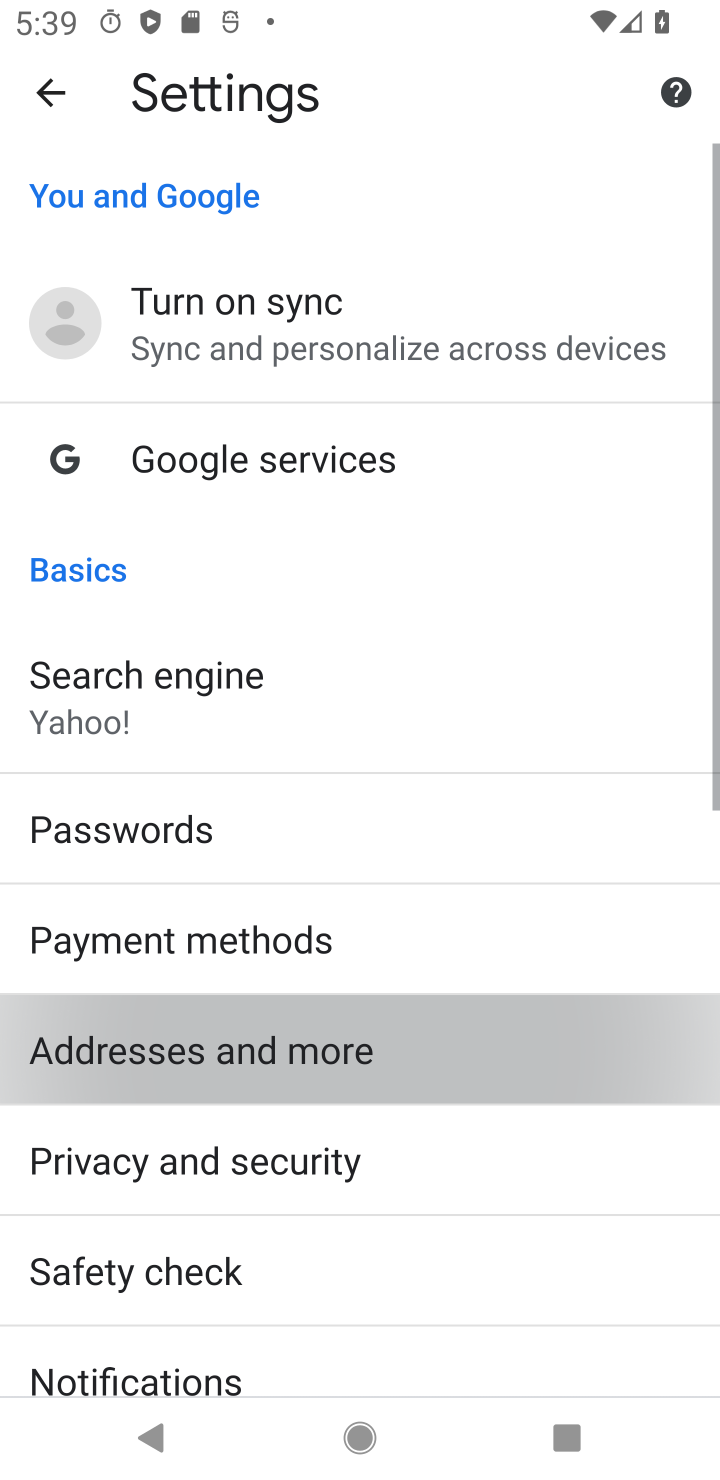
Step 33: drag from (195, 1107) to (384, 497)
Your task to perform on an android device: change your default location settings in chrome Image 34: 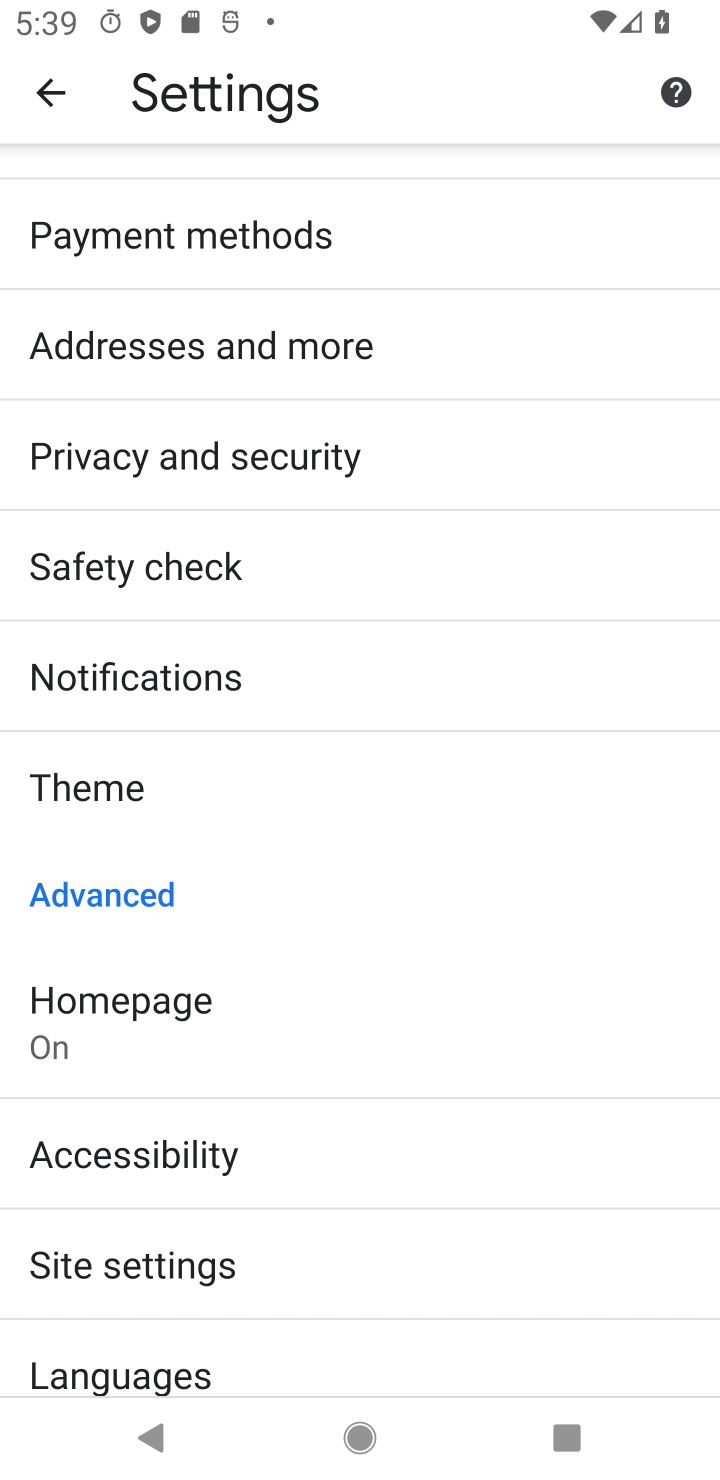
Step 34: drag from (298, 1318) to (314, 689)
Your task to perform on an android device: change your default location settings in chrome Image 35: 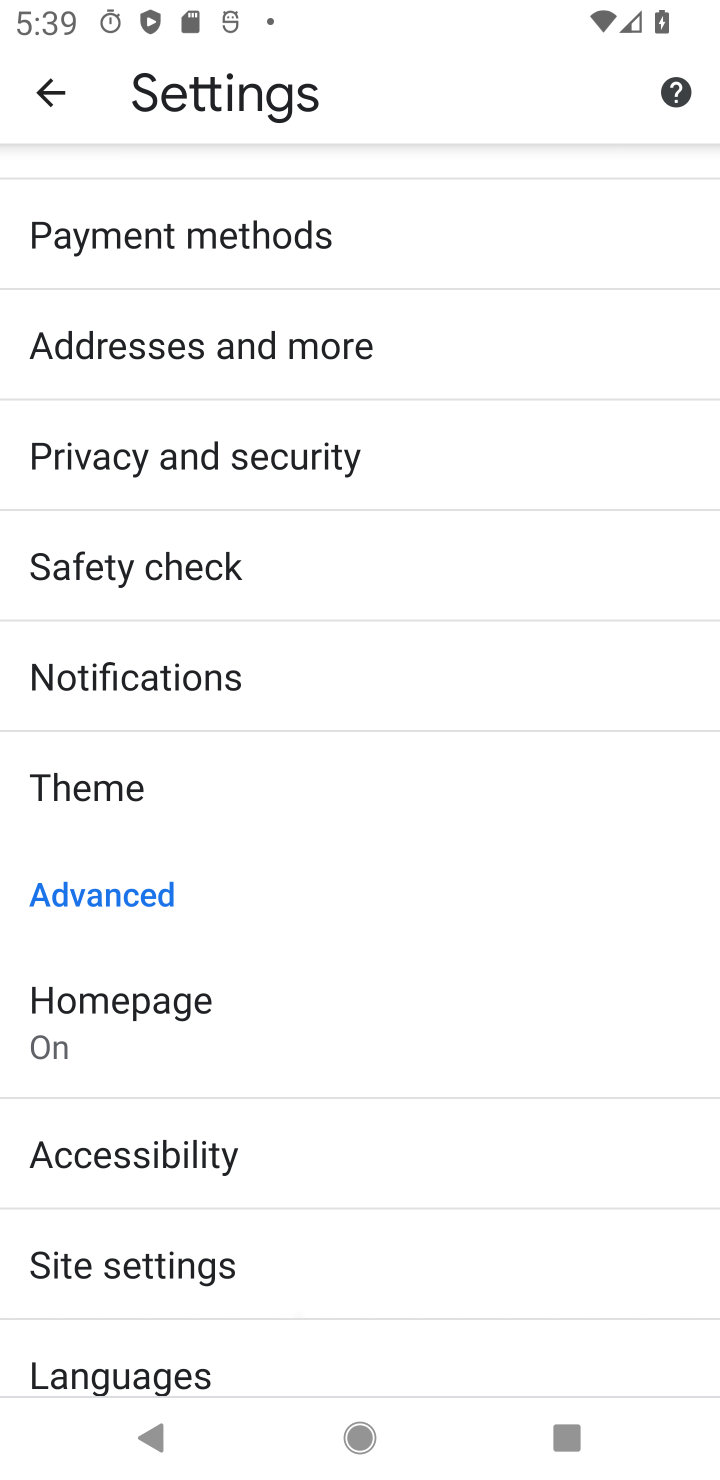
Step 35: drag from (325, 1011) to (321, 472)
Your task to perform on an android device: change your default location settings in chrome Image 36: 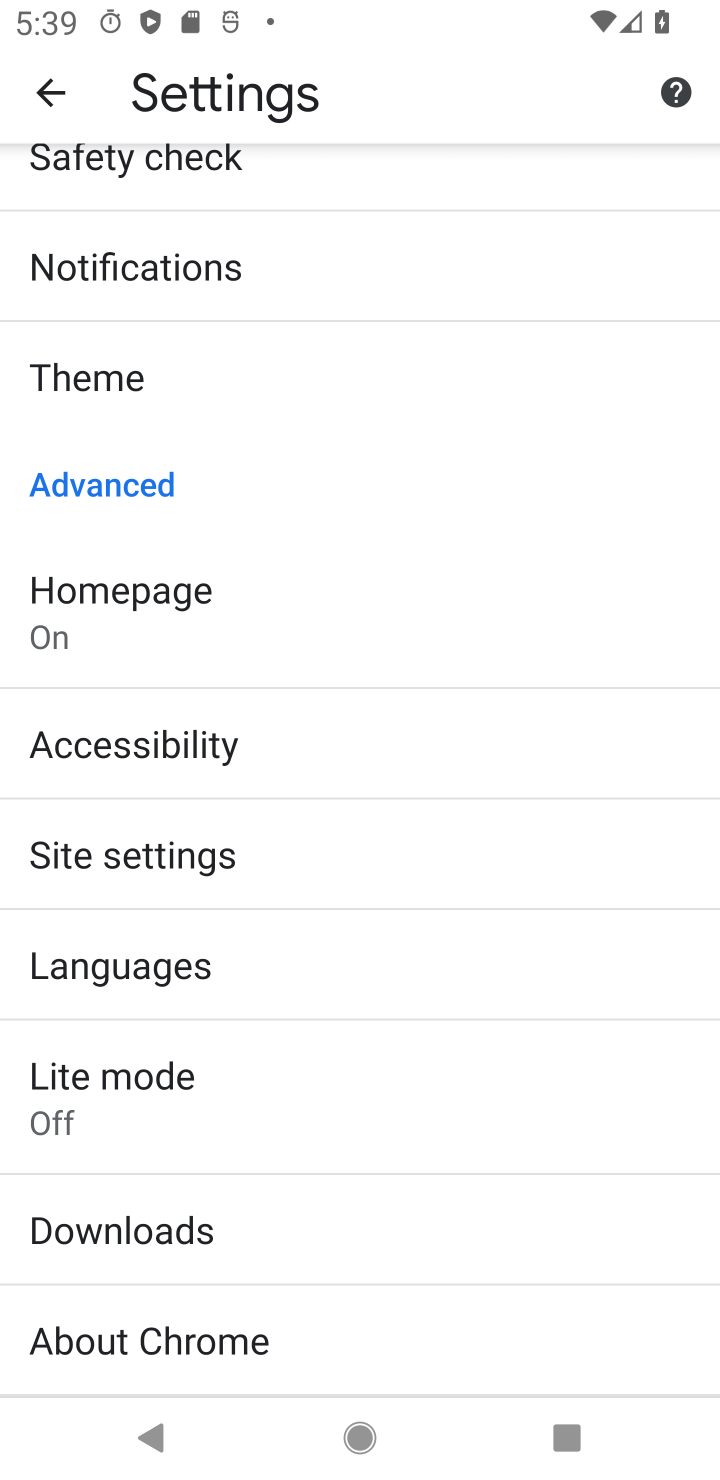
Step 36: click (107, 832)
Your task to perform on an android device: change your default location settings in chrome Image 37: 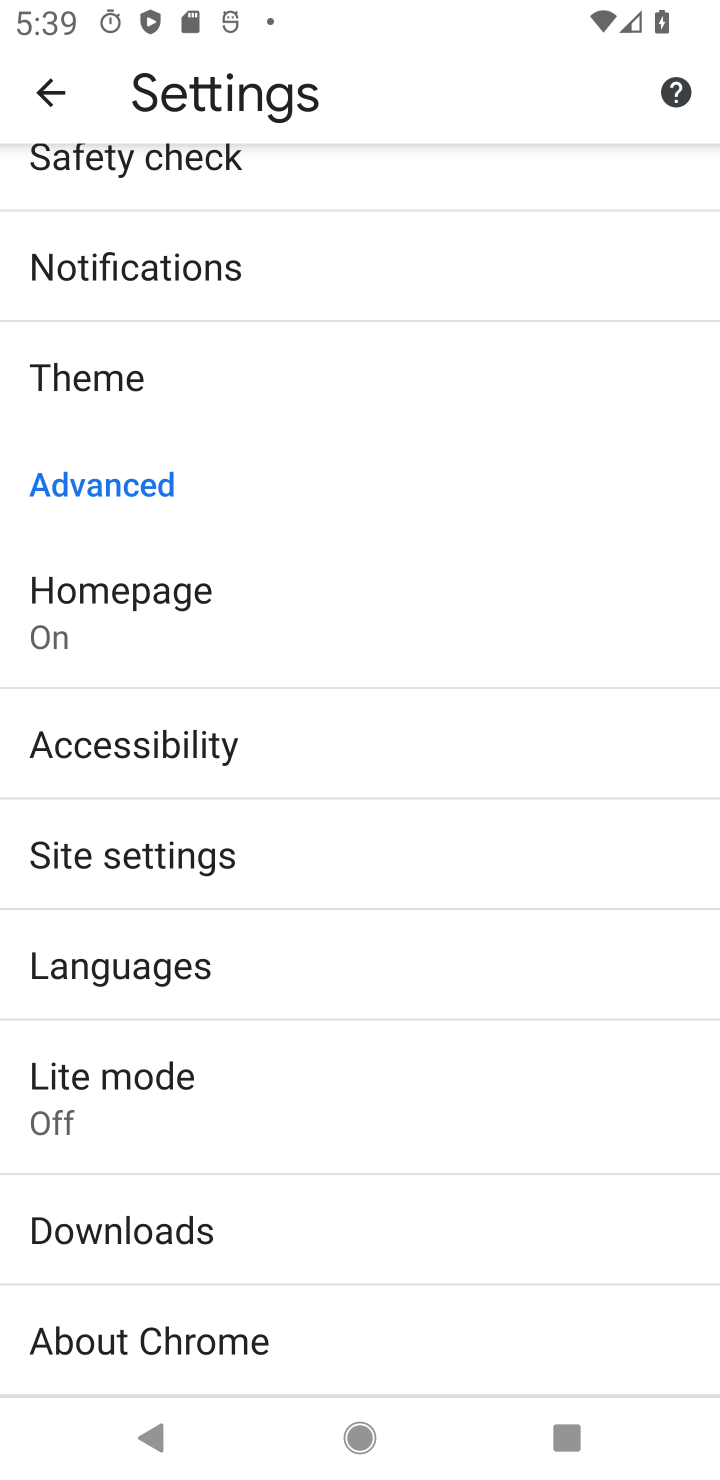
Step 37: click (103, 843)
Your task to perform on an android device: change your default location settings in chrome Image 38: 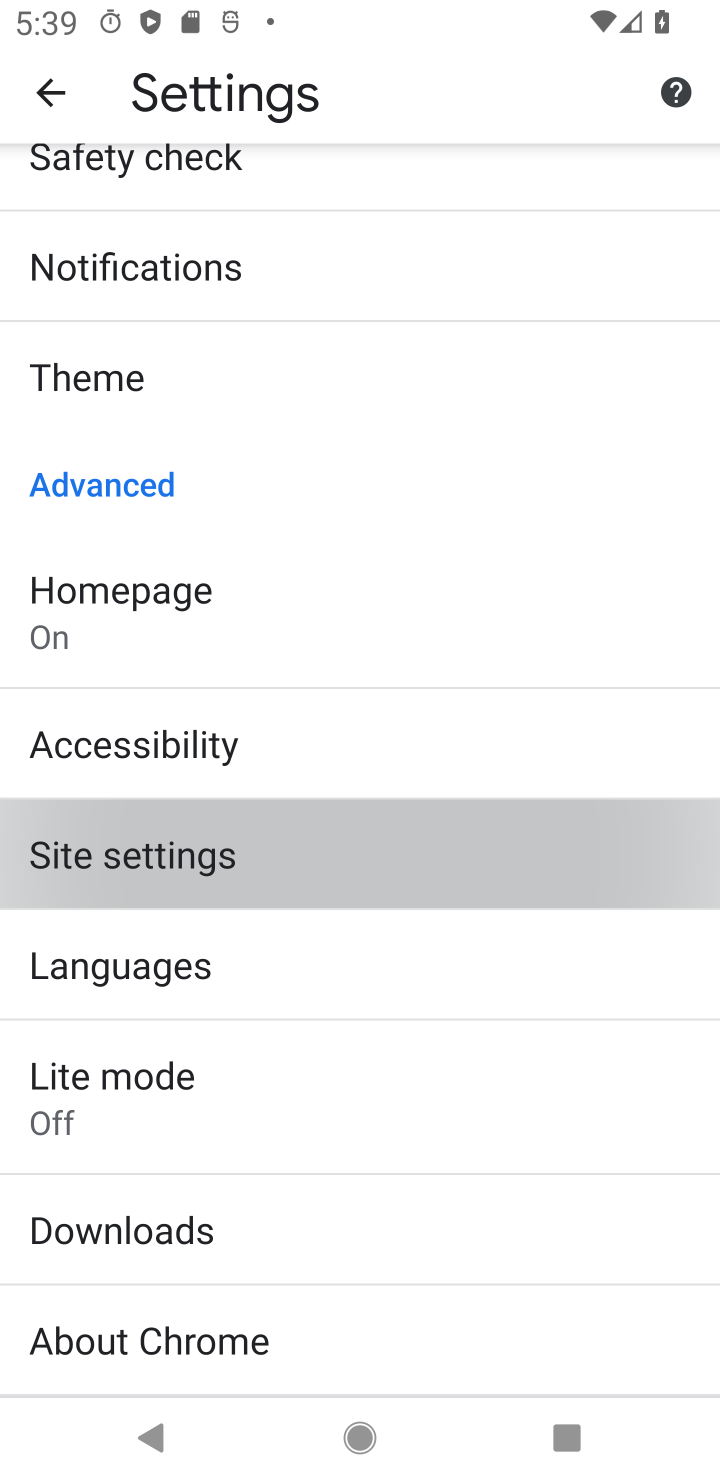
Step 38: click (103, 845)
Your task to perform on an android device: change your default location settings in chrome Image 39: 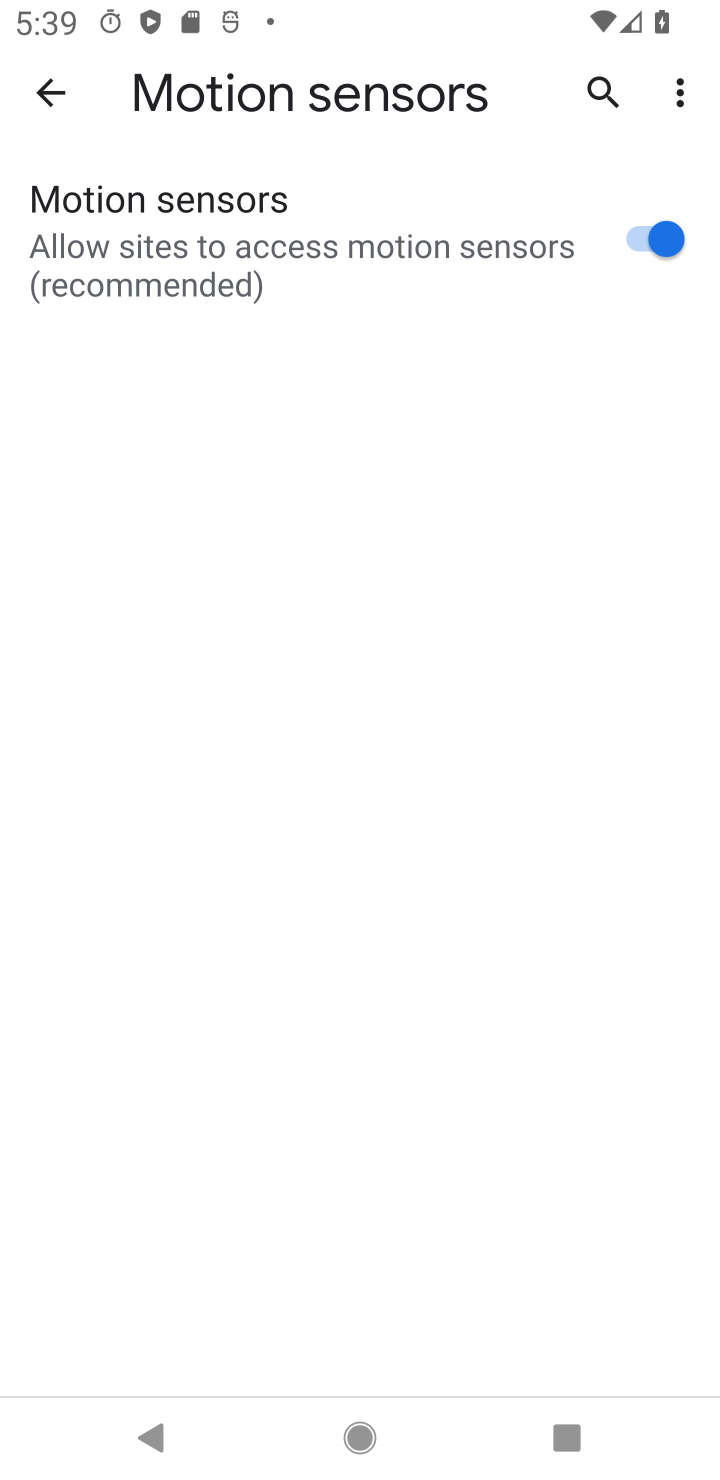
Step 39: click (179, 460)
Your task to perform on an android device: change your default location settings in chrome Image 40: 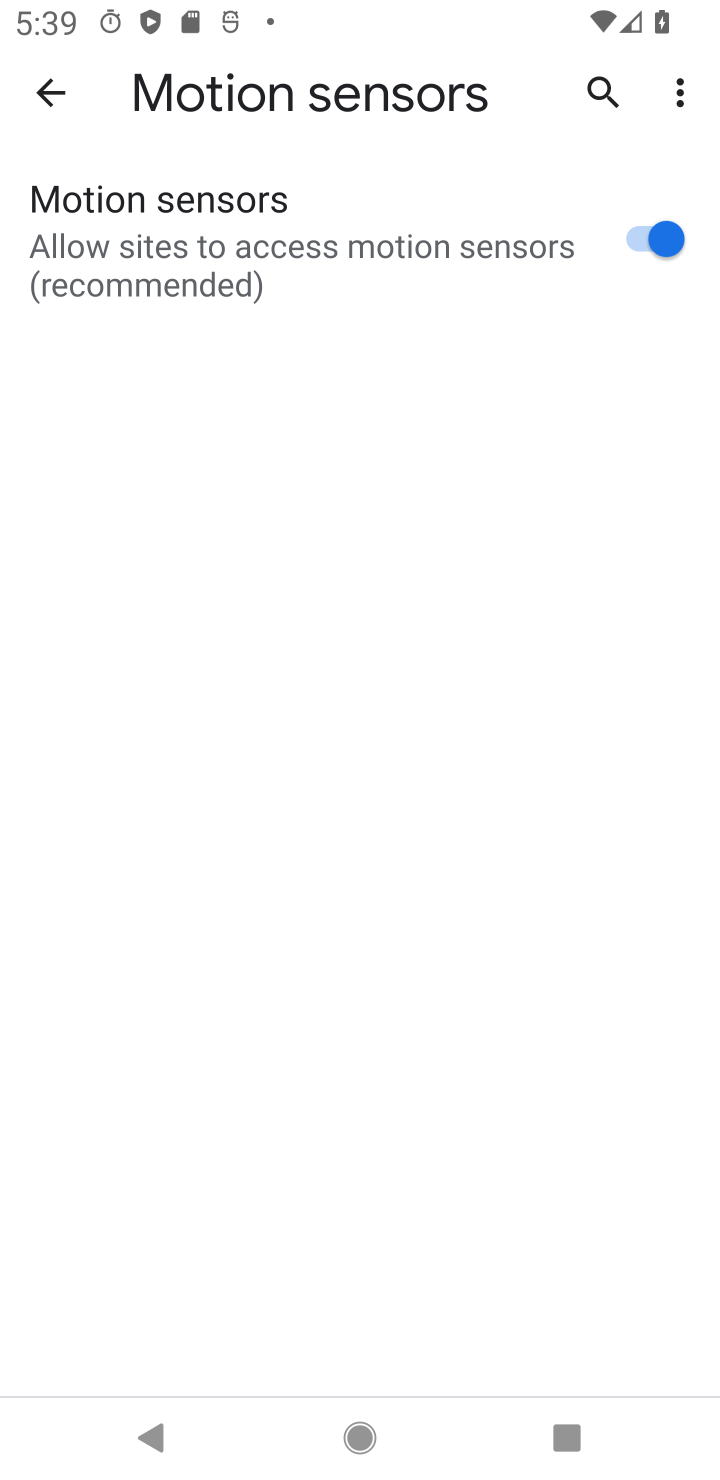
Step 40: click (32, 73)
Your task to perform on an android device: change your default location settings in chrome Image 41: 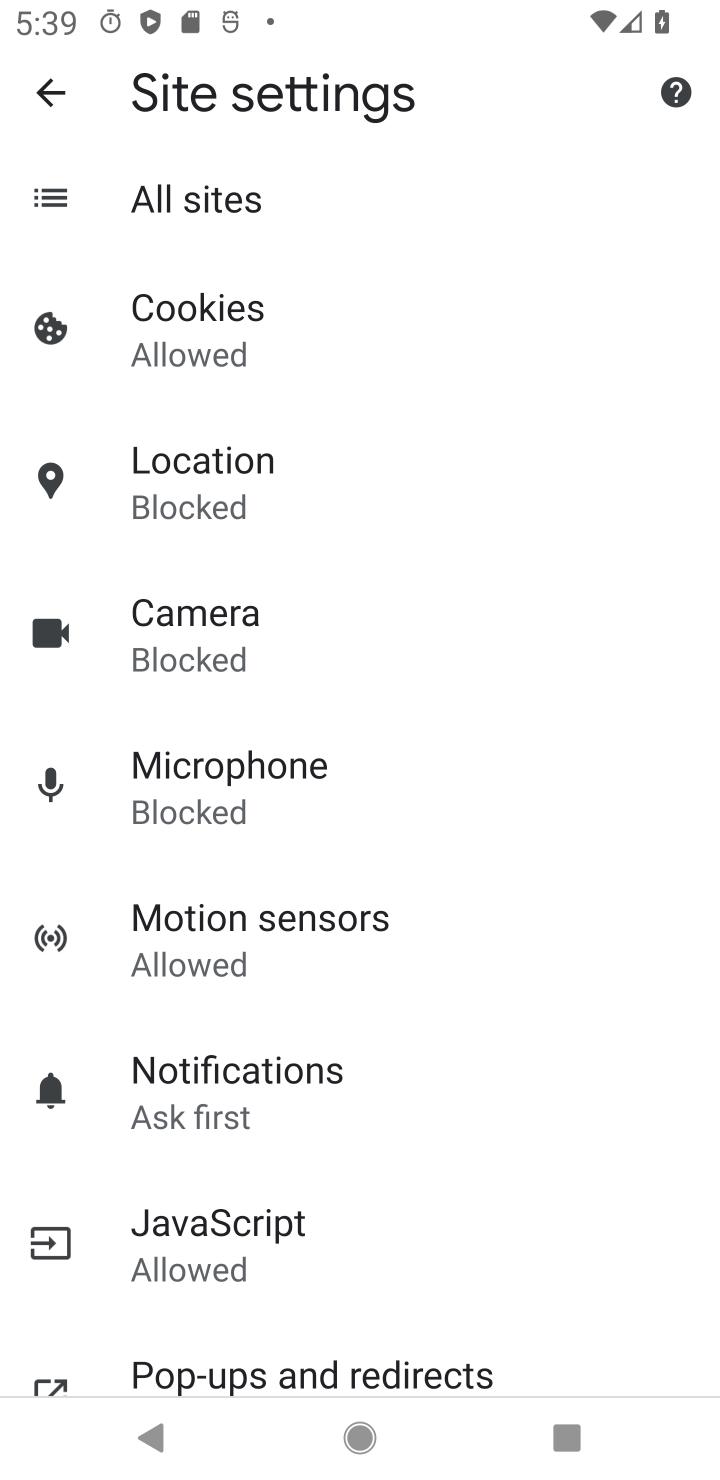
Step 41: click (193, 481)
Your task to perform on an android device: change your default location settings in chrome Image 42: 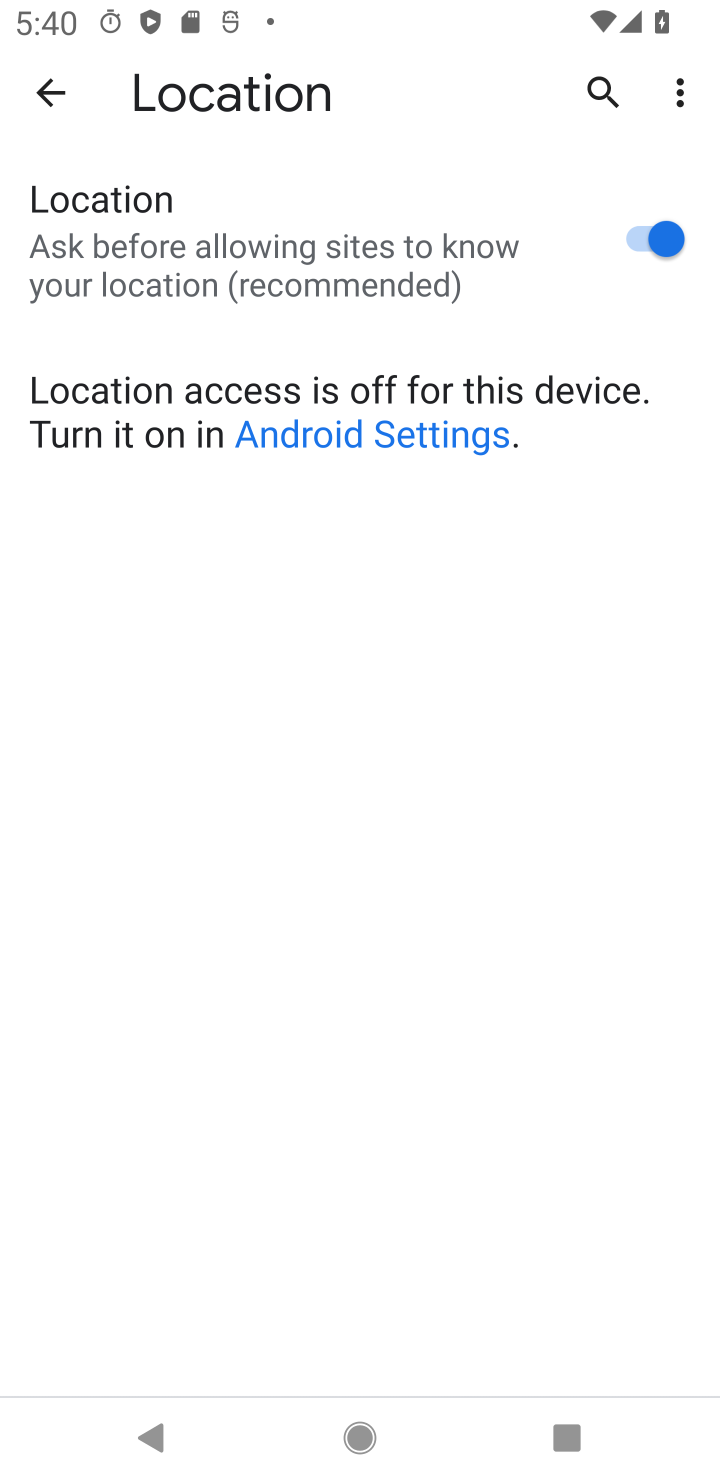
Step 42: click (672, 227)
Your task to perform on an android device: change your default location settings in chrome Image 43: 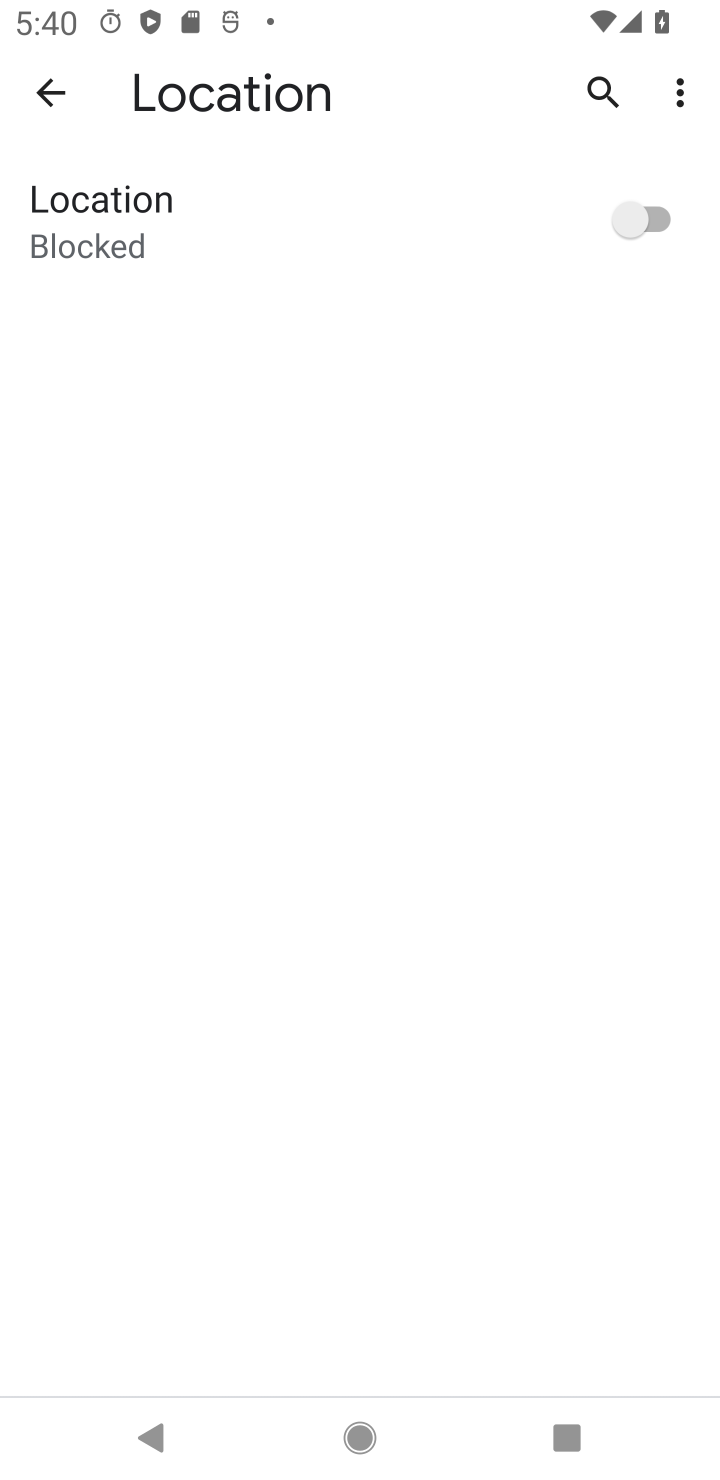
Step 43: task complete